Your task to perform on an android device: Search for the new Apple Watch on Best Buy Image 0: 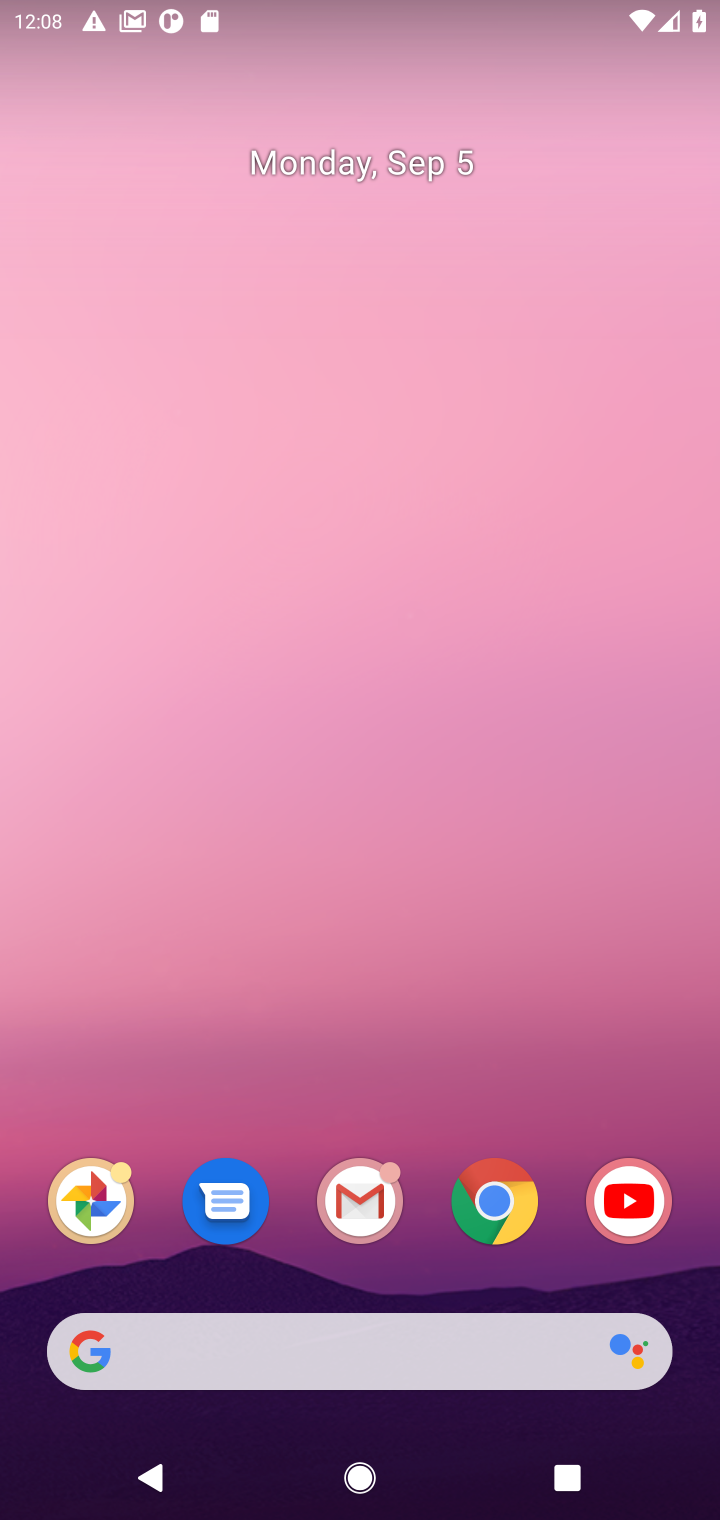
Step 0: click (506, 1210)
Your task to perform on an android device: Search for the new Apple Watch on Best Buy Image 1: 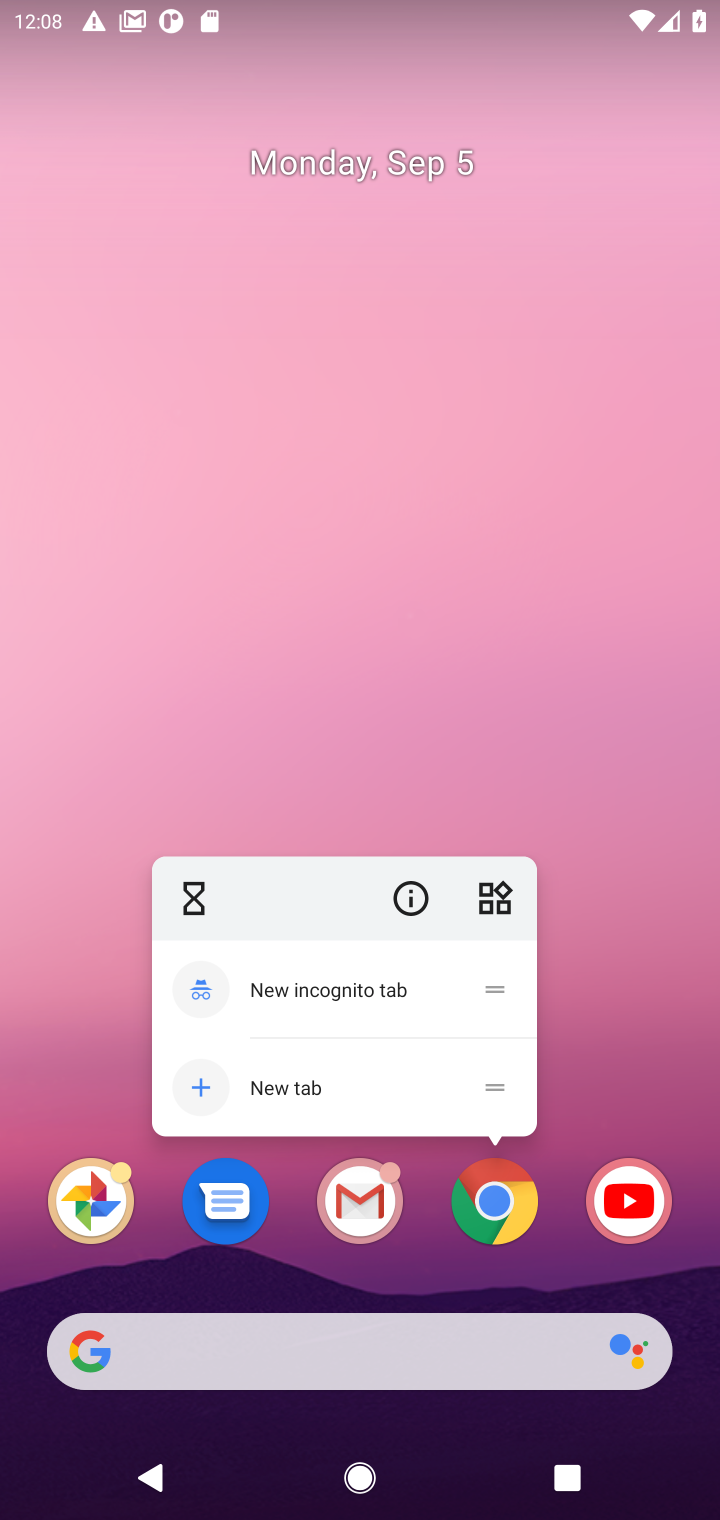
Step 1: click (496, 1200)
Your task to perform on an android device: Search for the new Apple Watch on Best Buy Image 2: 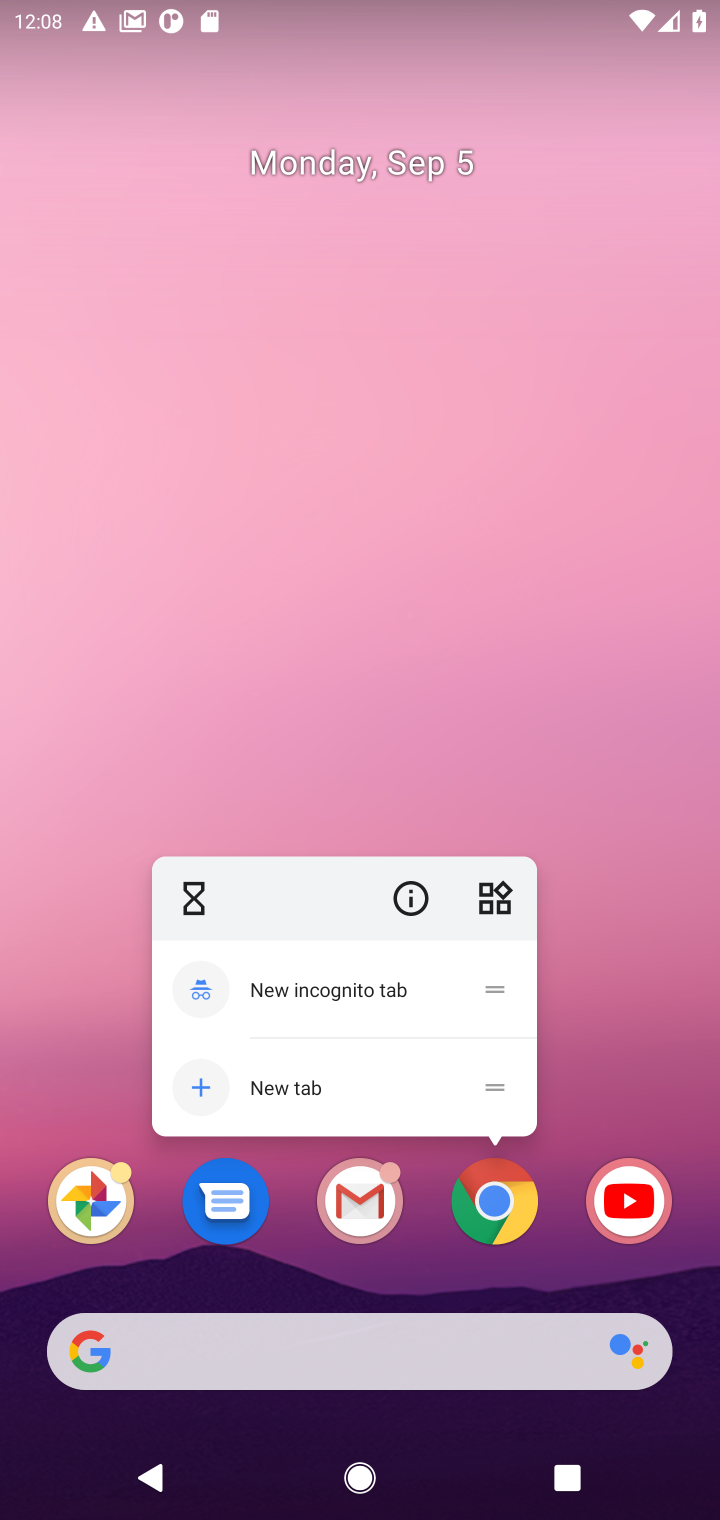
Step 2: click (501, 1214)
Your task to perform on an android device: Search for the new Apple Watch on Best Buy Image 3: 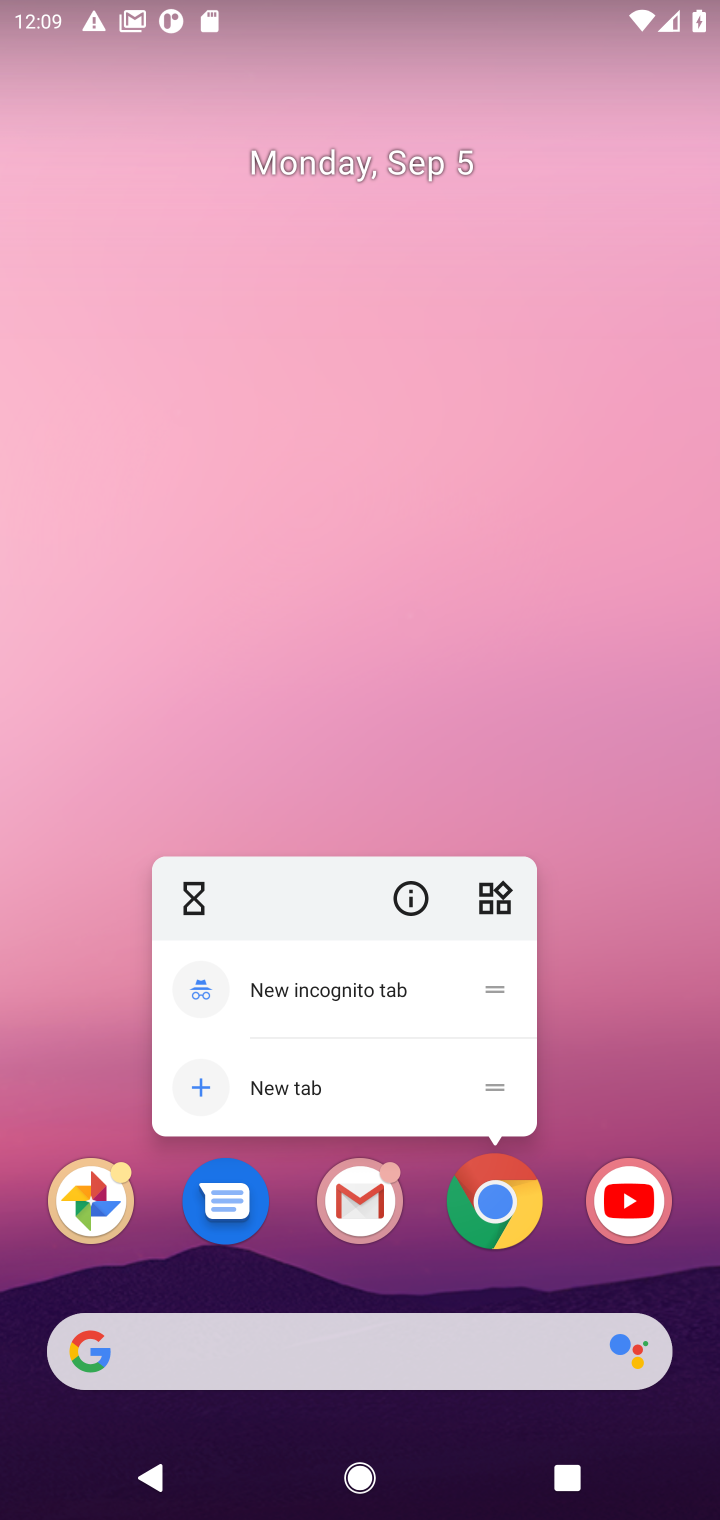
Step 3: click (482, 1197)
Your task to perform on an android device: Search for the new Apple Watch on Best Buy Image 4: 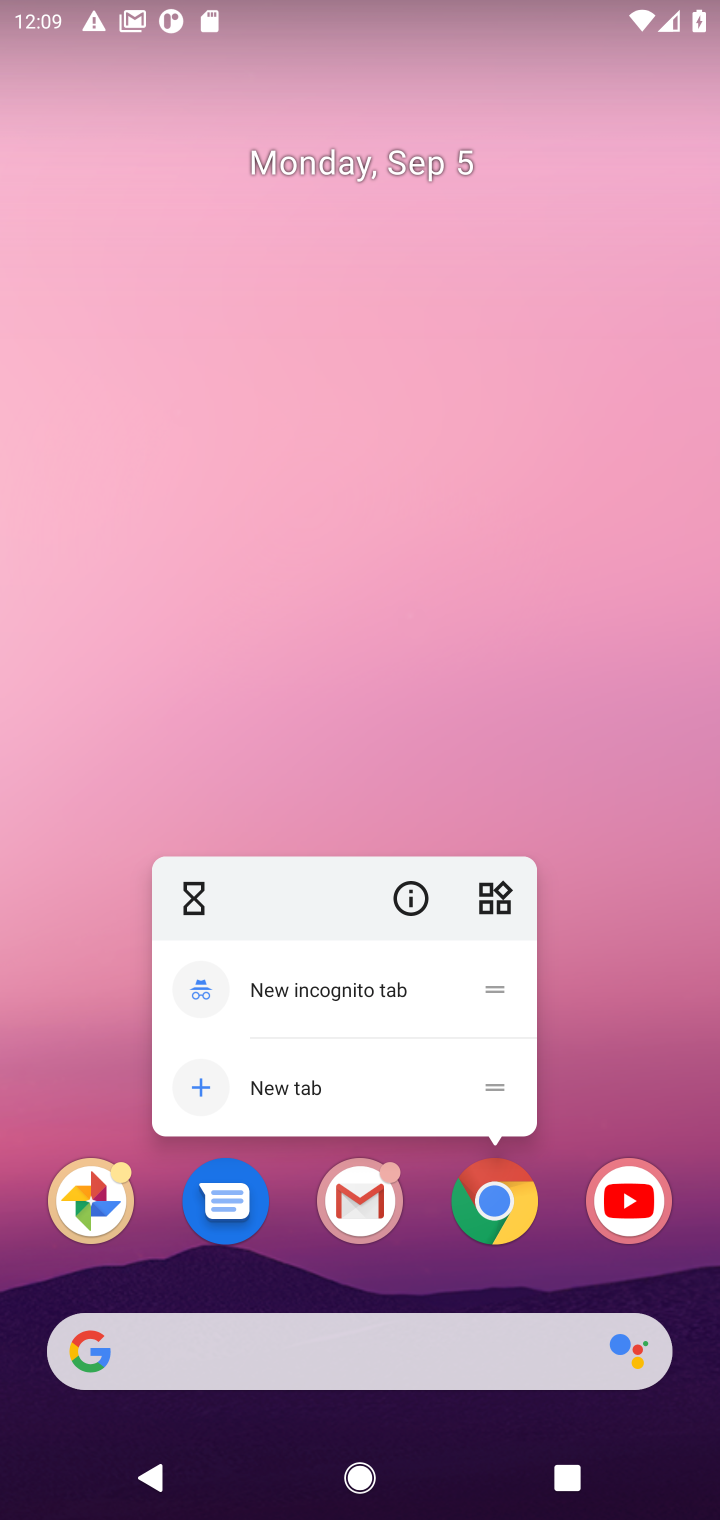
Step 4: click (487, 1205)
Your task to perform on an android device: Search for the new Apple Watch on Best Buy Image 5: 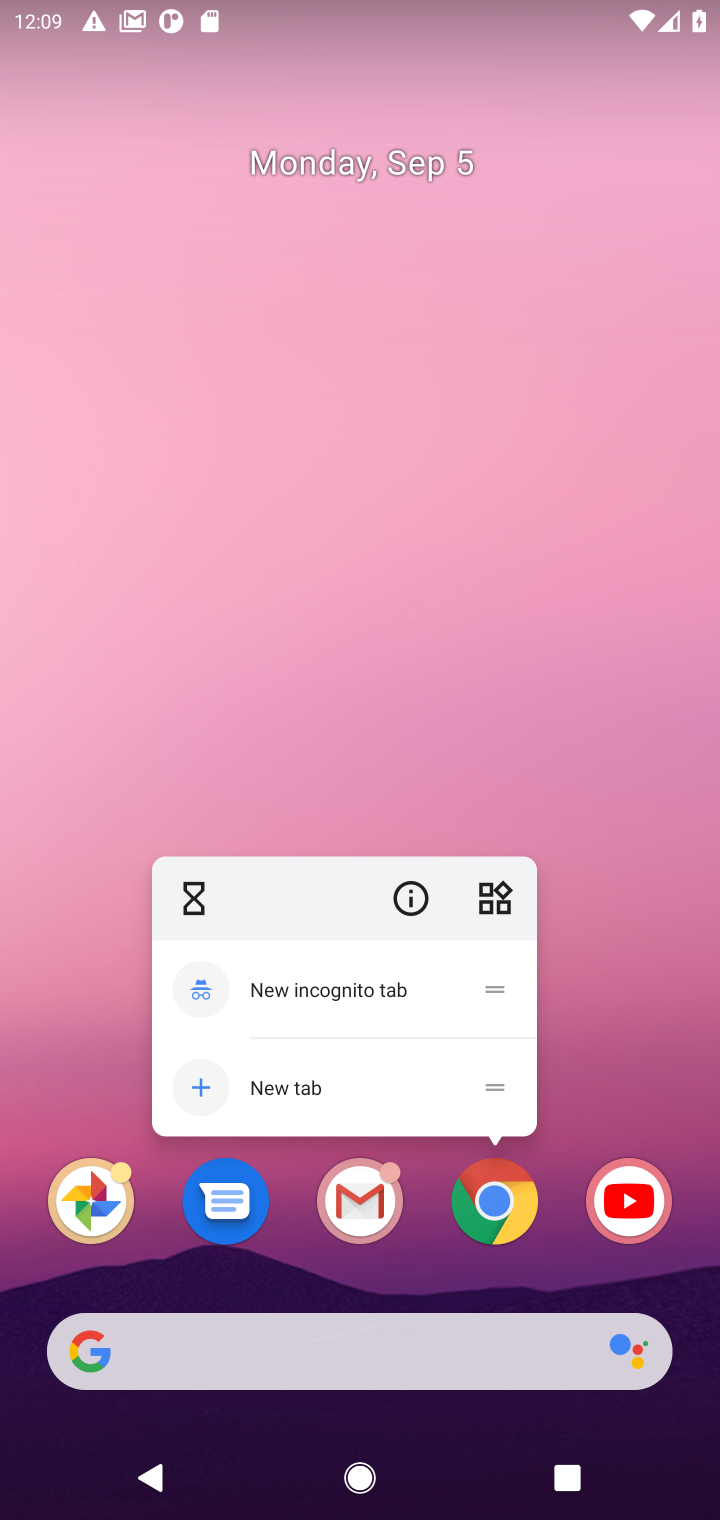
Step 5: click (500, 1216)
Your task to perform on an android device: Search for the new Apple Watch on Best Buy Image 6: 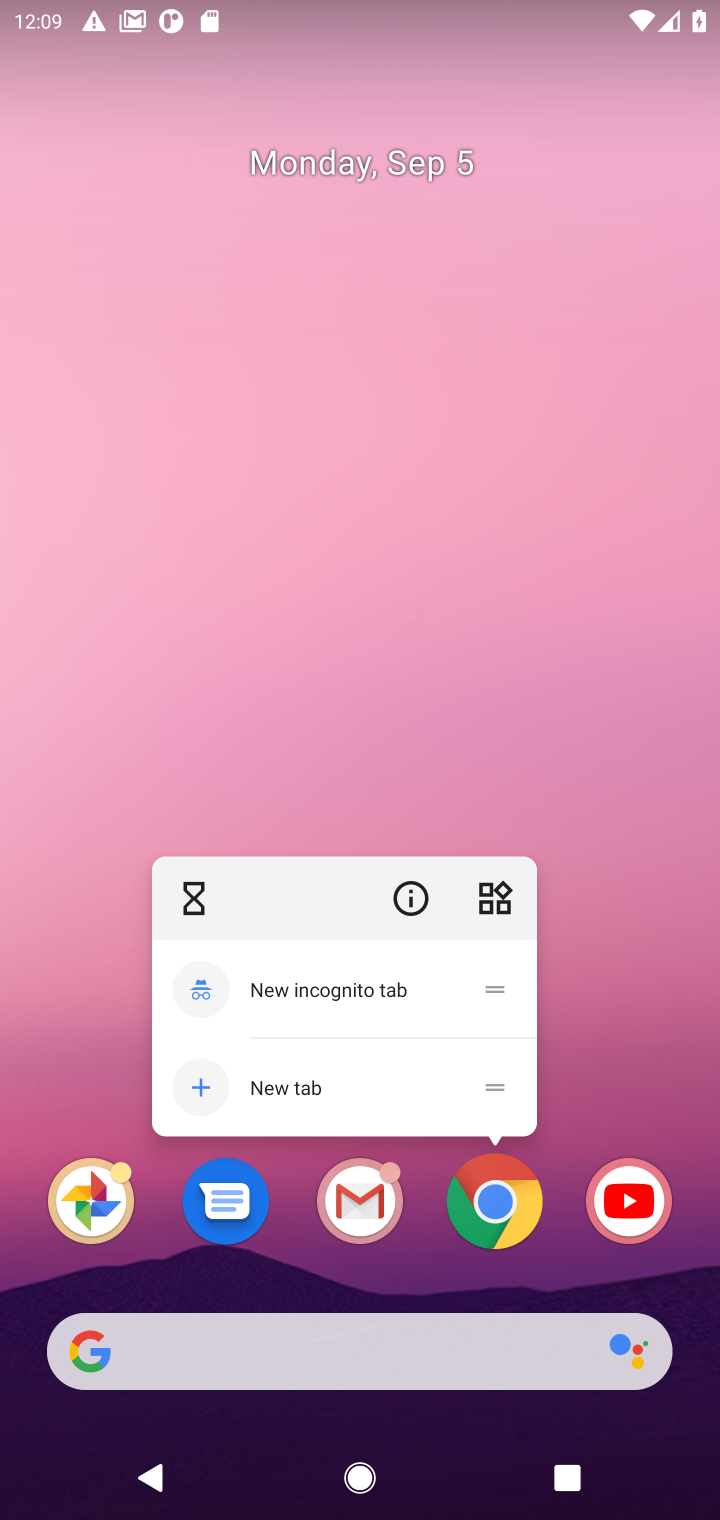
Step 6: click (504, 1208)
Your task to perform on an android device: Search for the new Apple Watch on Best Buy Image 7: 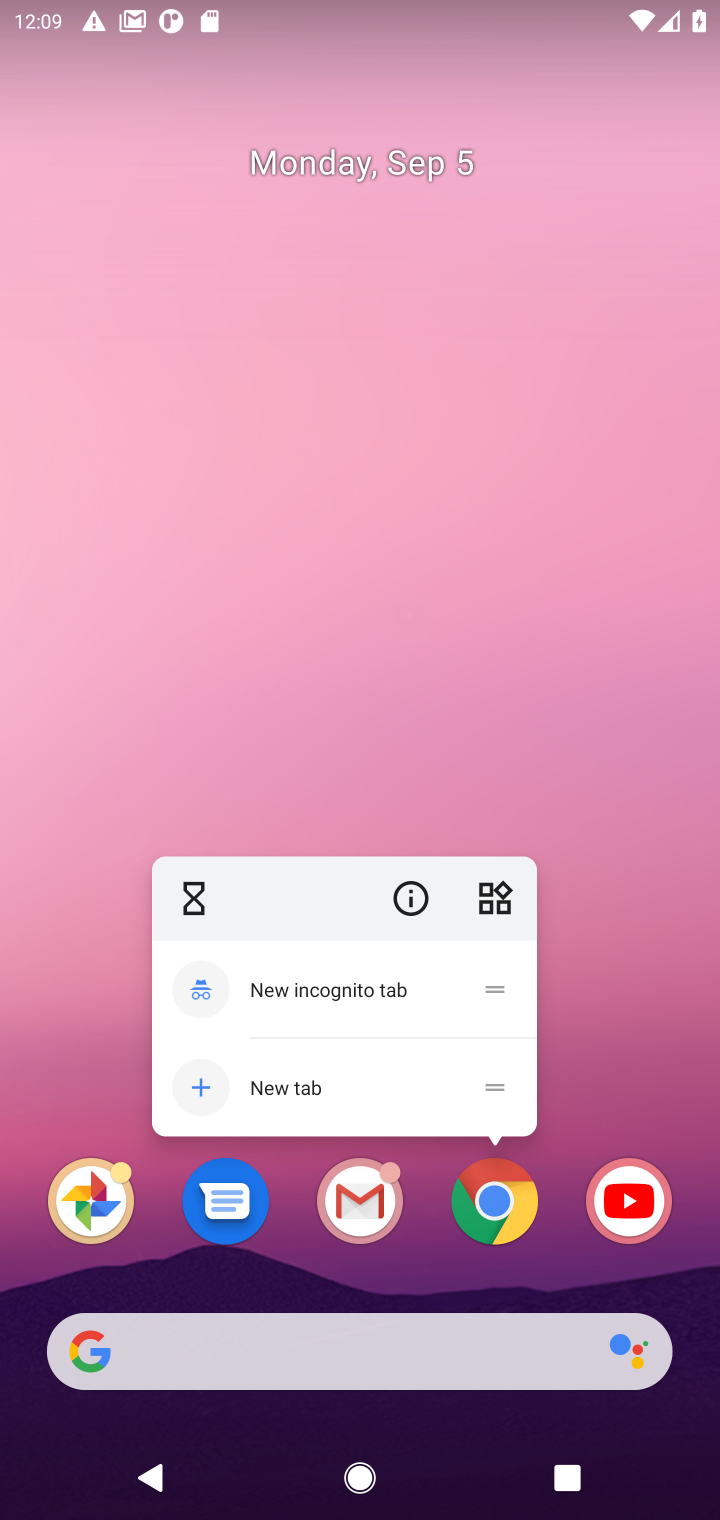
Step 7: click (508, 1210)
Your task to perform on an android device: Search for the new Apple Watch on Best Buy Image 8: 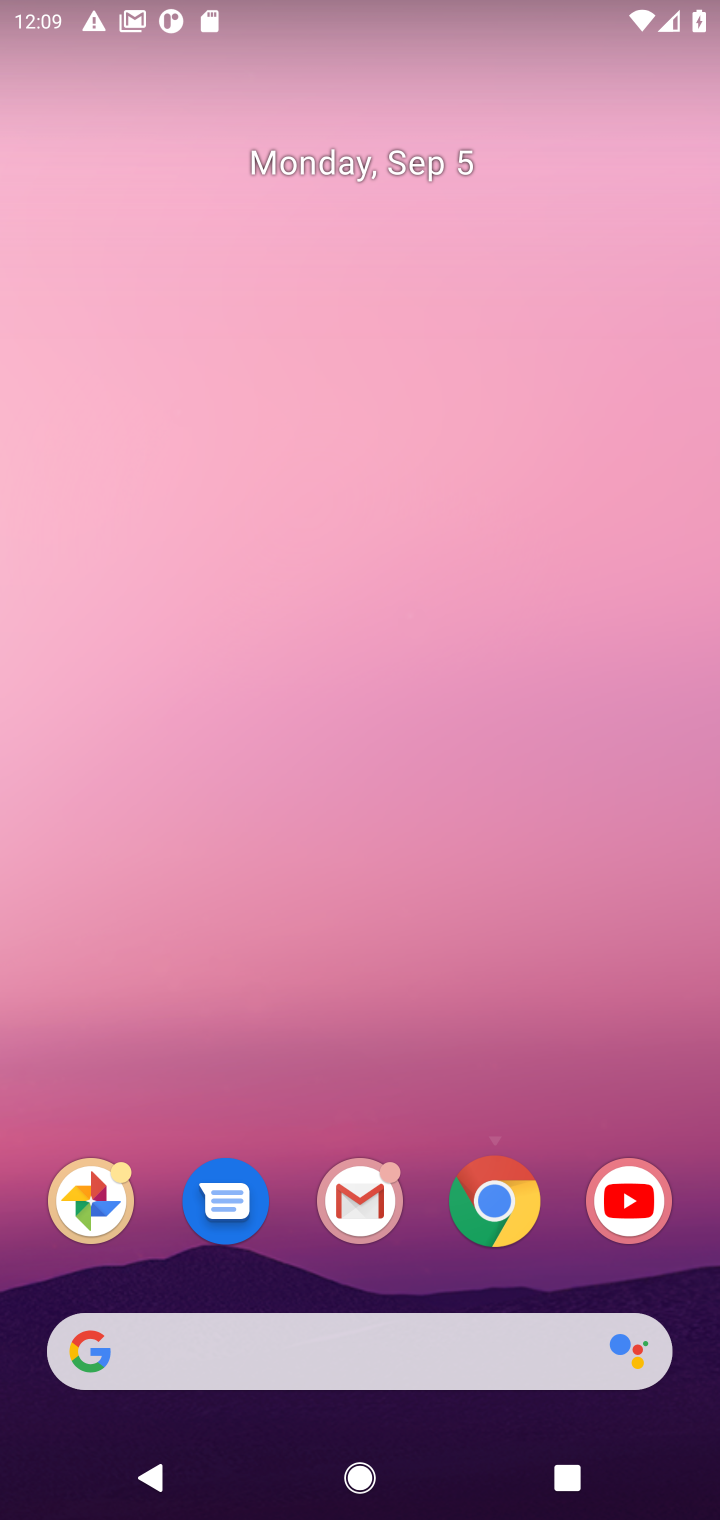
Step 8: click (508, 1212)
Your task to perform on an android device: Search for the new Apple Watch on Best Buy Image 9: 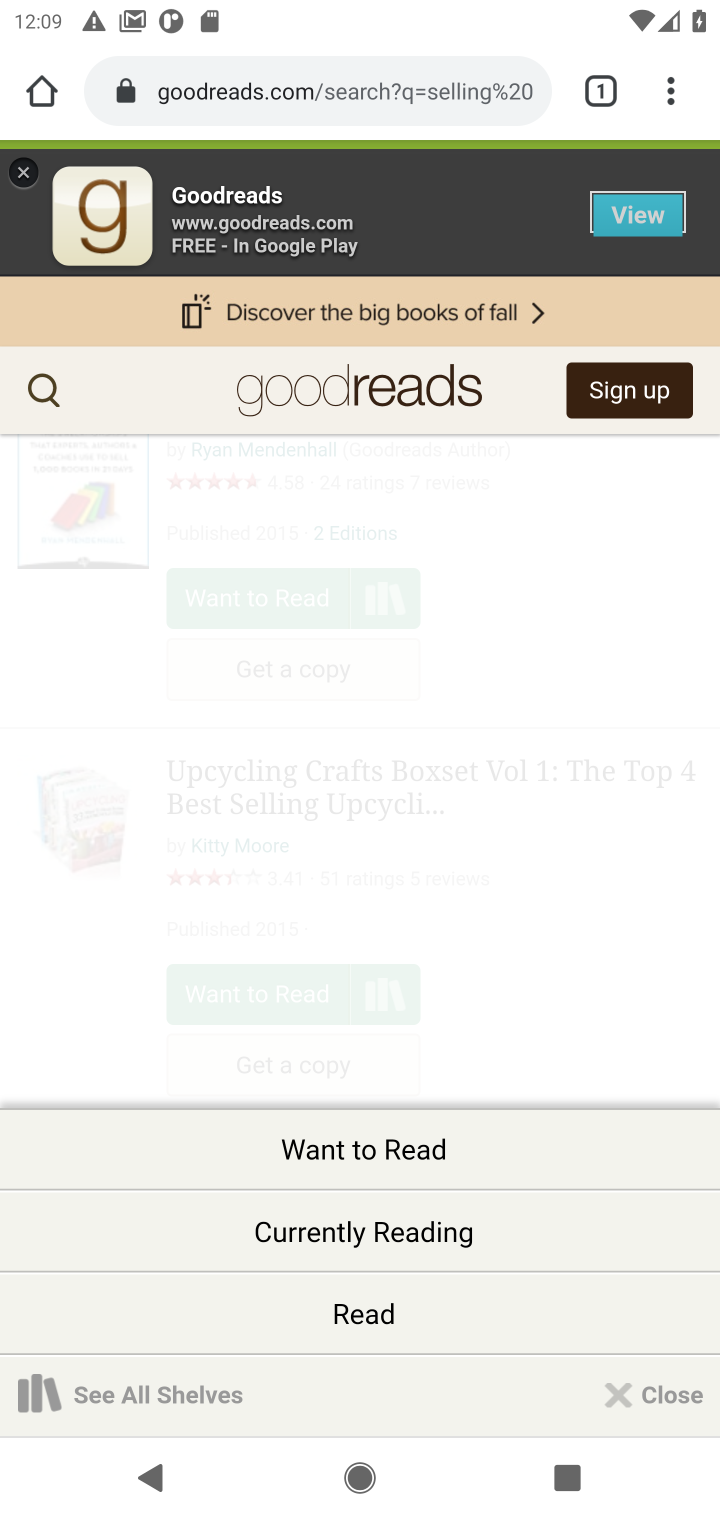
Step 9: click (335, 87)
Your task to perform on an android device: Search for the new Apple Watch on Best Buy Image 10: 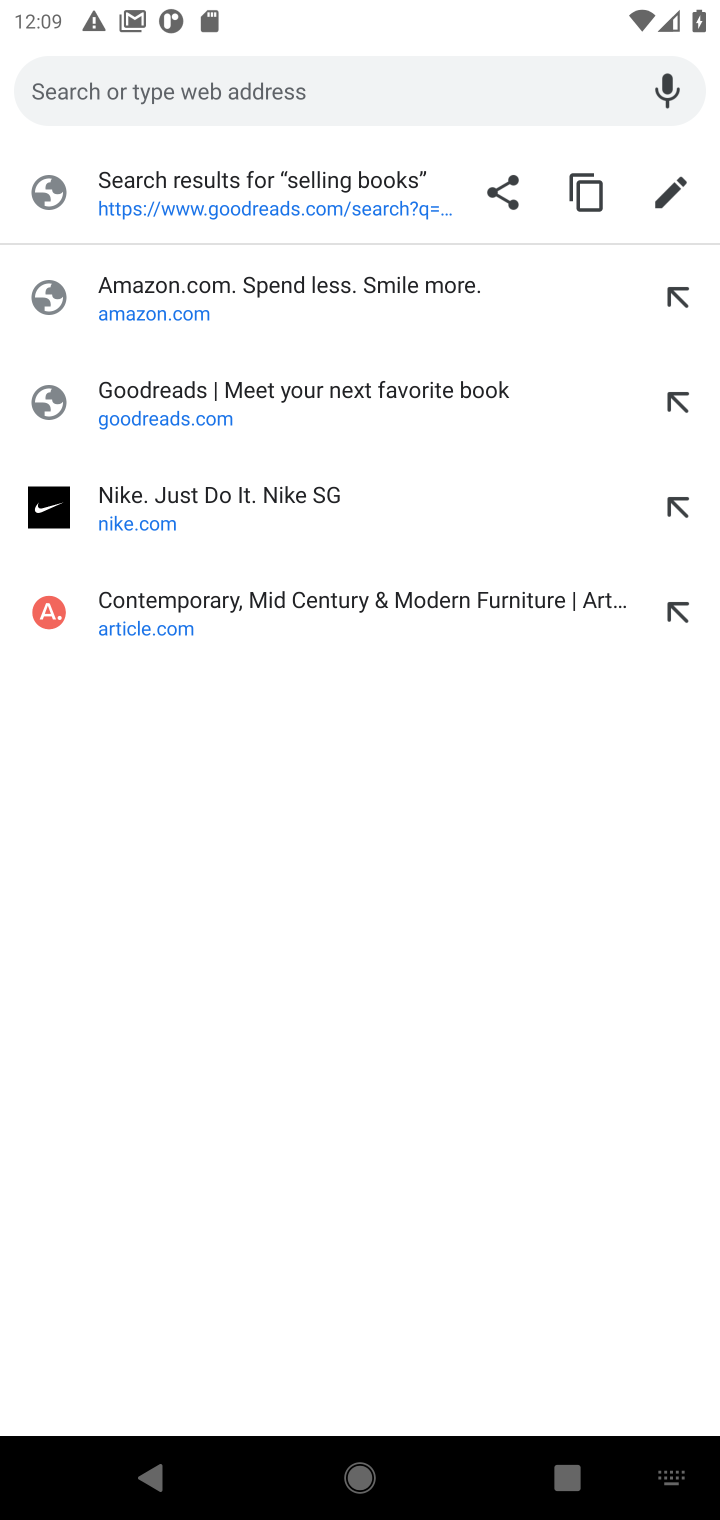
Step 10: type "best buy"
Your task to perform on an android device: Search for the new Apple Watch on Best Buy Image 11: 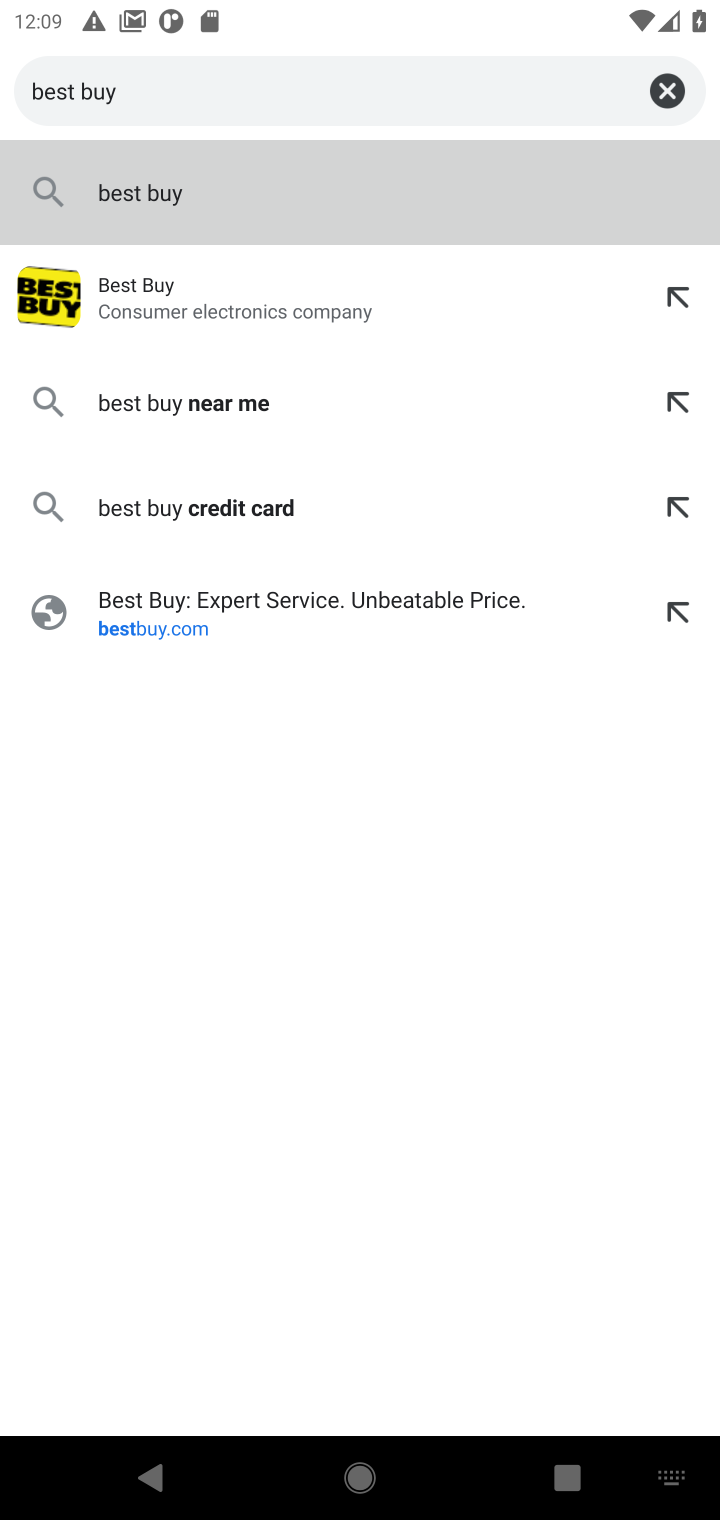
Step 11: click (225, 310)
Your task to perform on an android device: Search for the new Apple Watch on Best Buy Image 12: 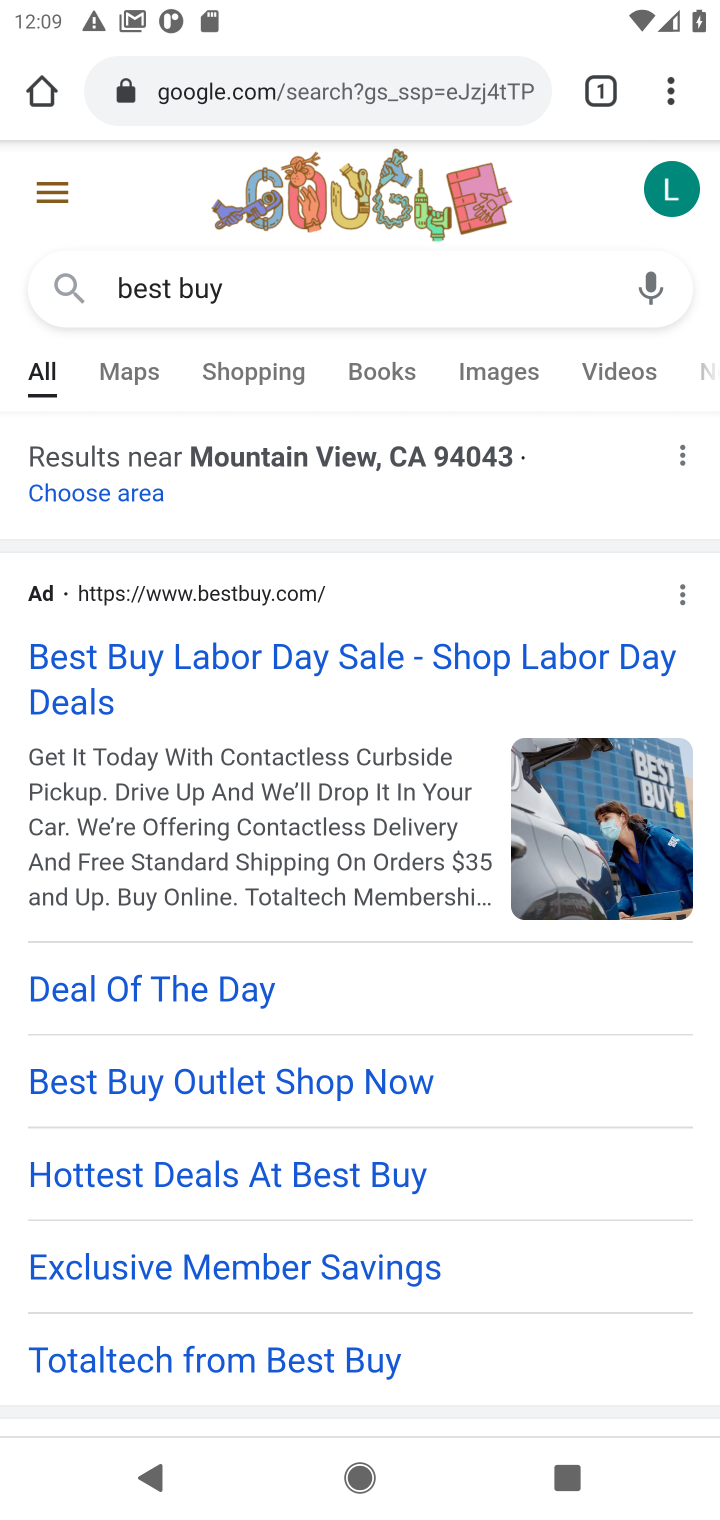
Step 12: drag from (541, 1143) to (547, 326)
Your task to perform on an android device: Search for the new Apple Watch on Best Buy Image 13: 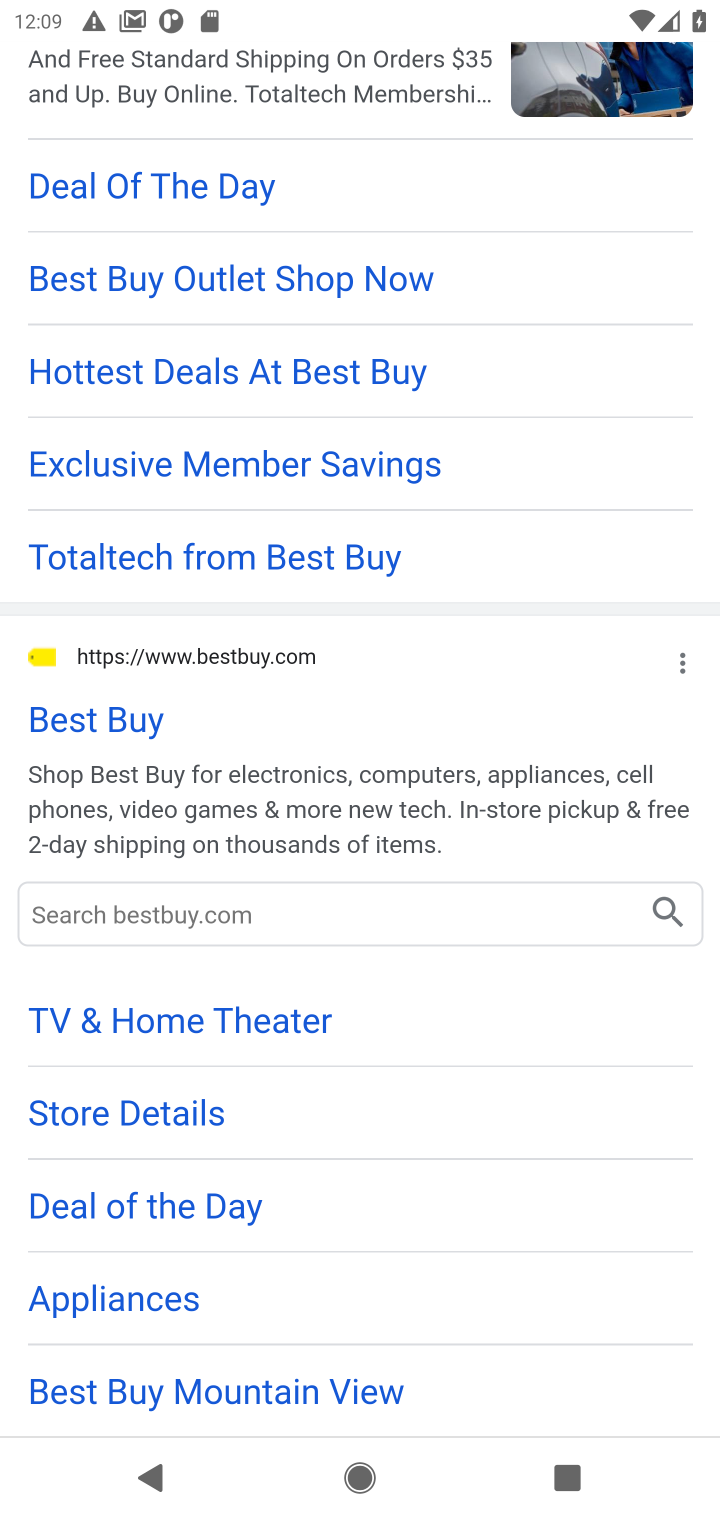
Step 13: click (56, 708)
Your task to perform on an android device: Search for the new Apple Watch on Best Buy Image 14: 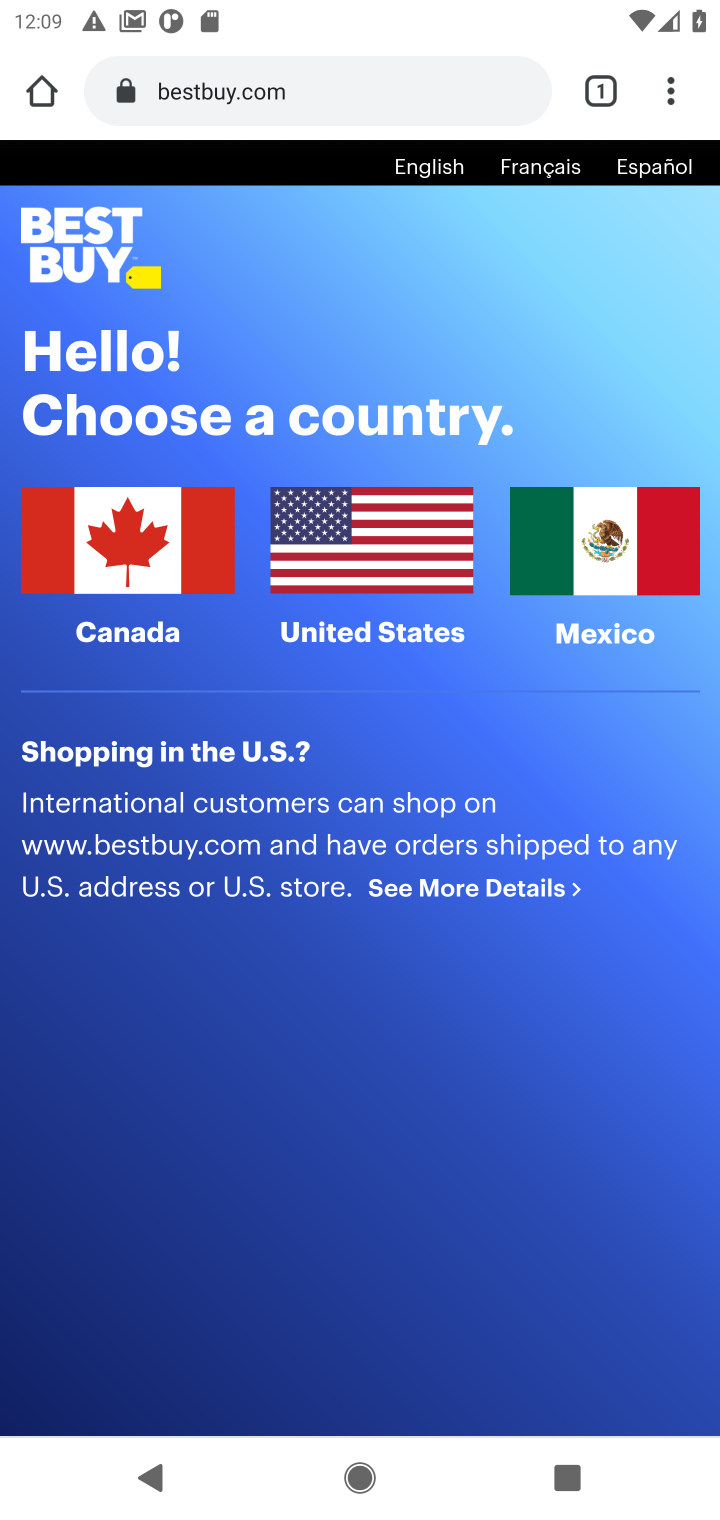
Step 14: click (337, 560)
Your task to perform on an android device: Search for the new Apple Watch on Best Buy Image 15: 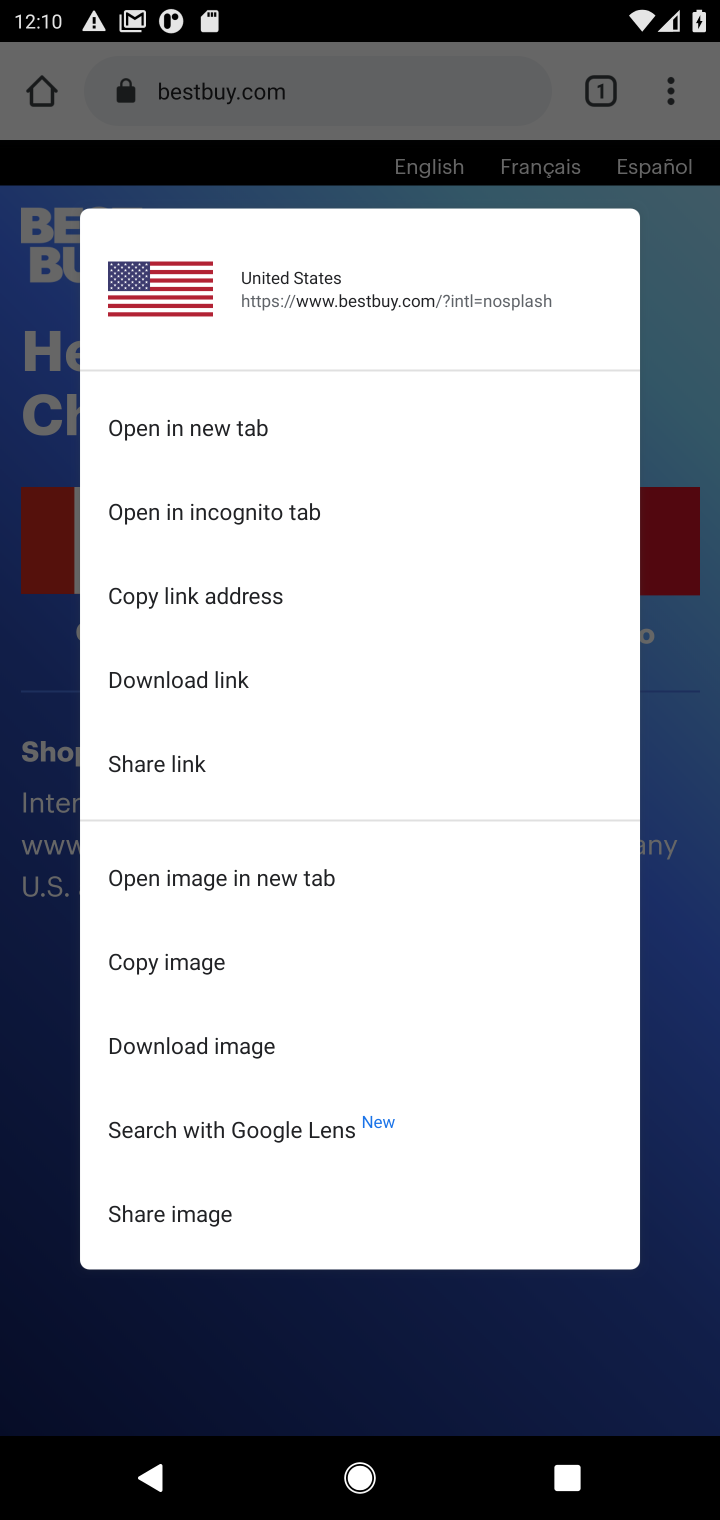
Step 15: click (703, 804)
Your task to perform on an android device: Search for the new Apple Watch on Best Buy Image 16: 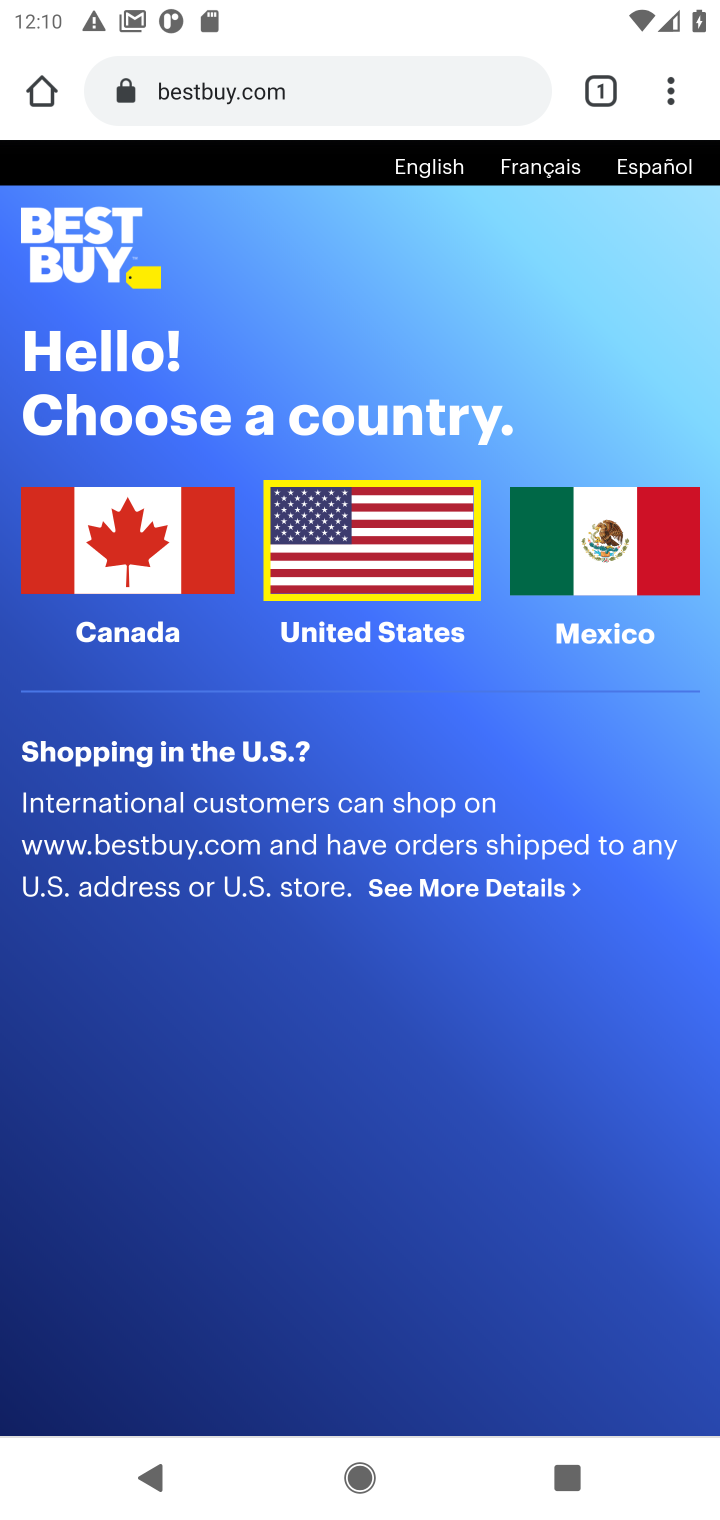
Step 16: click (386, 533)
Your task to perform on an android device: Search for the new Apple Watch on Best Buy Image 17: 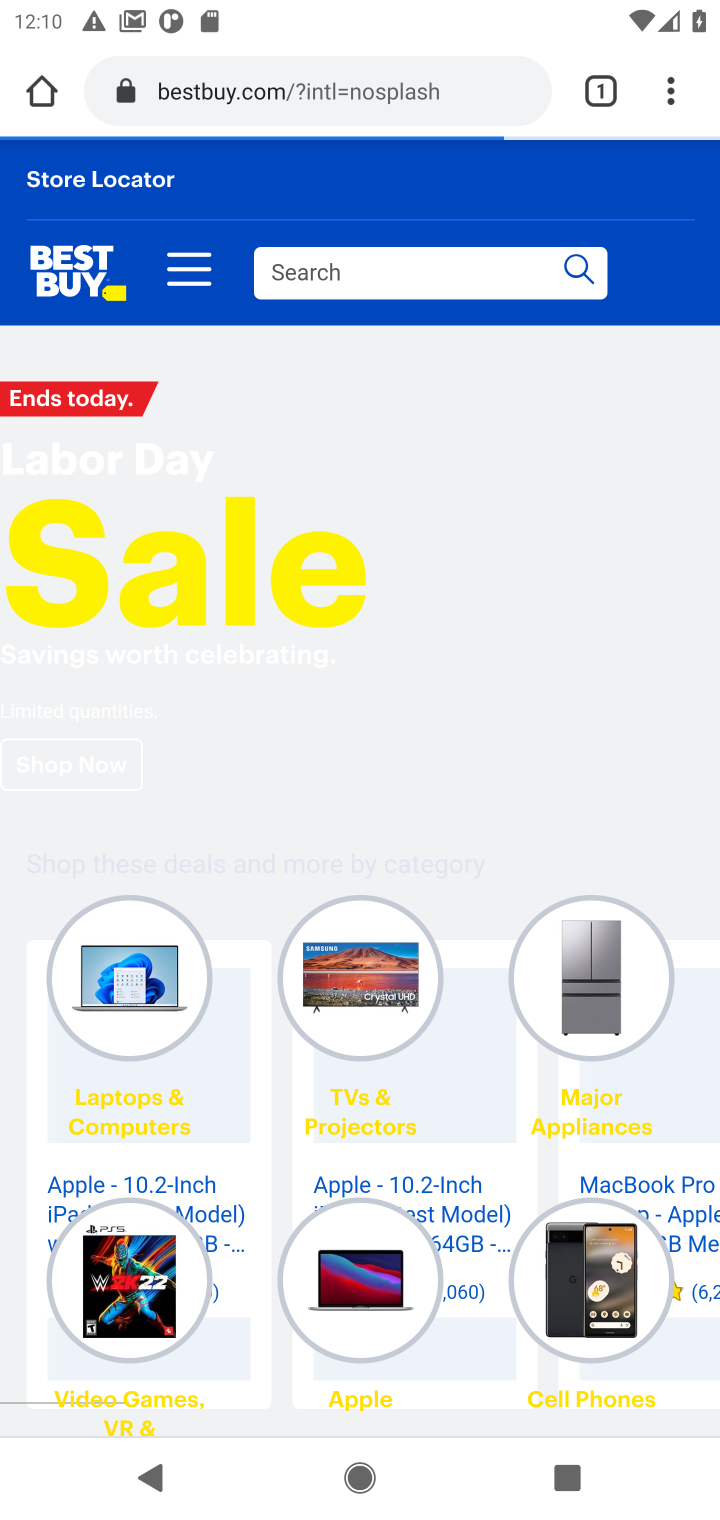
Step 17: click (398, 277)
Your task to perform on an android device: Search for the new Apple Watch on Best Buy Image 18: 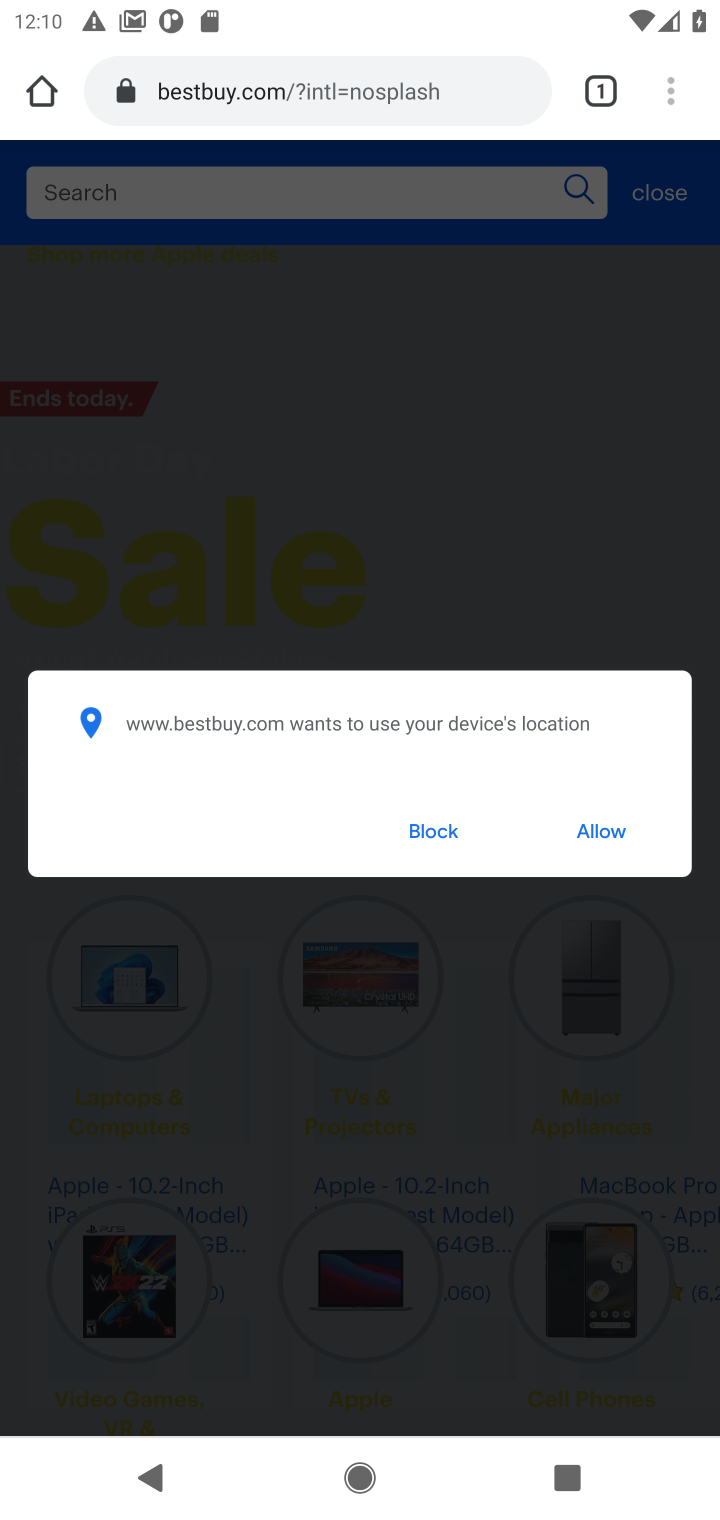
Step 18: type "apple watch"
Your task to perform on an android device: Search for the new Apple Watch on Best Buy Image 19: 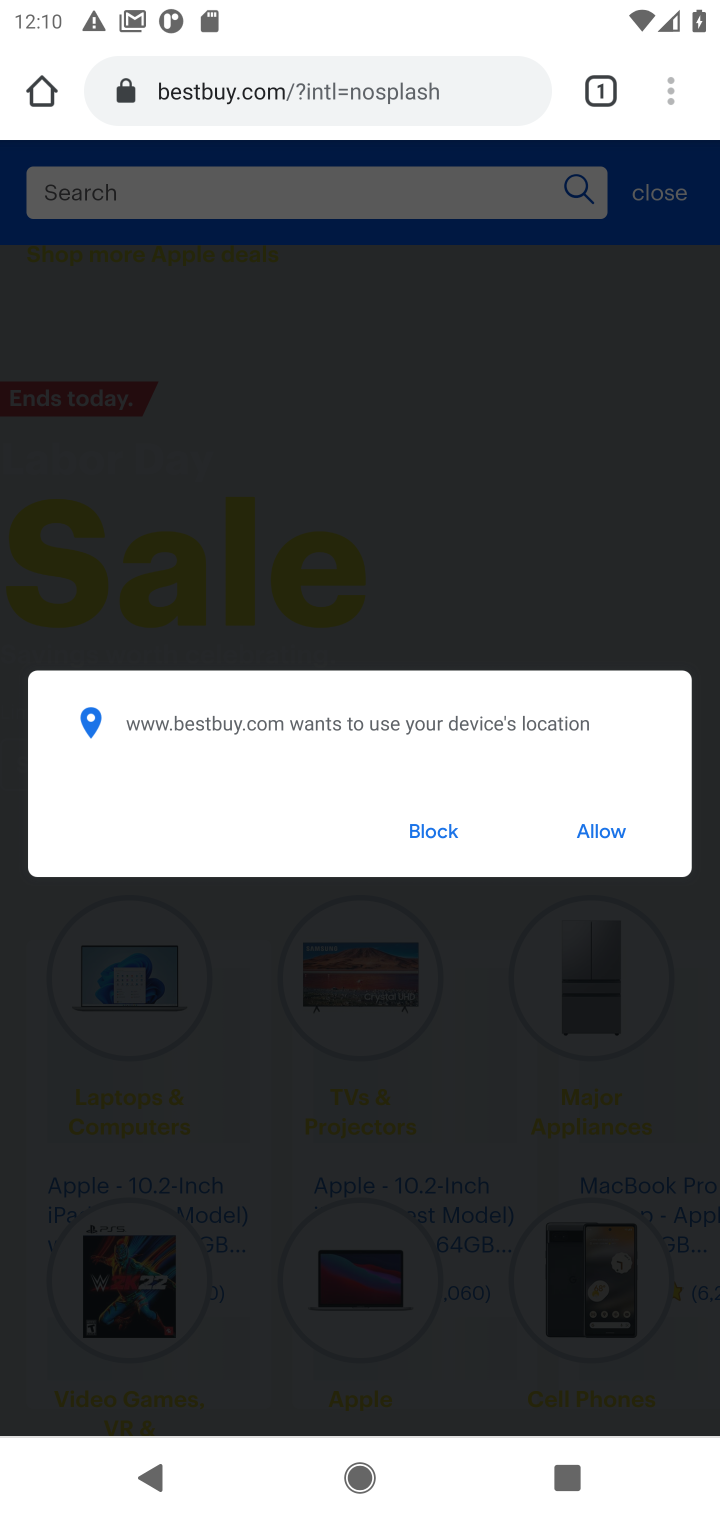
Step 19: click (598, 831)
Your task to perform on an android device: Search for the new Apple Watch on Best Buy Image 20: 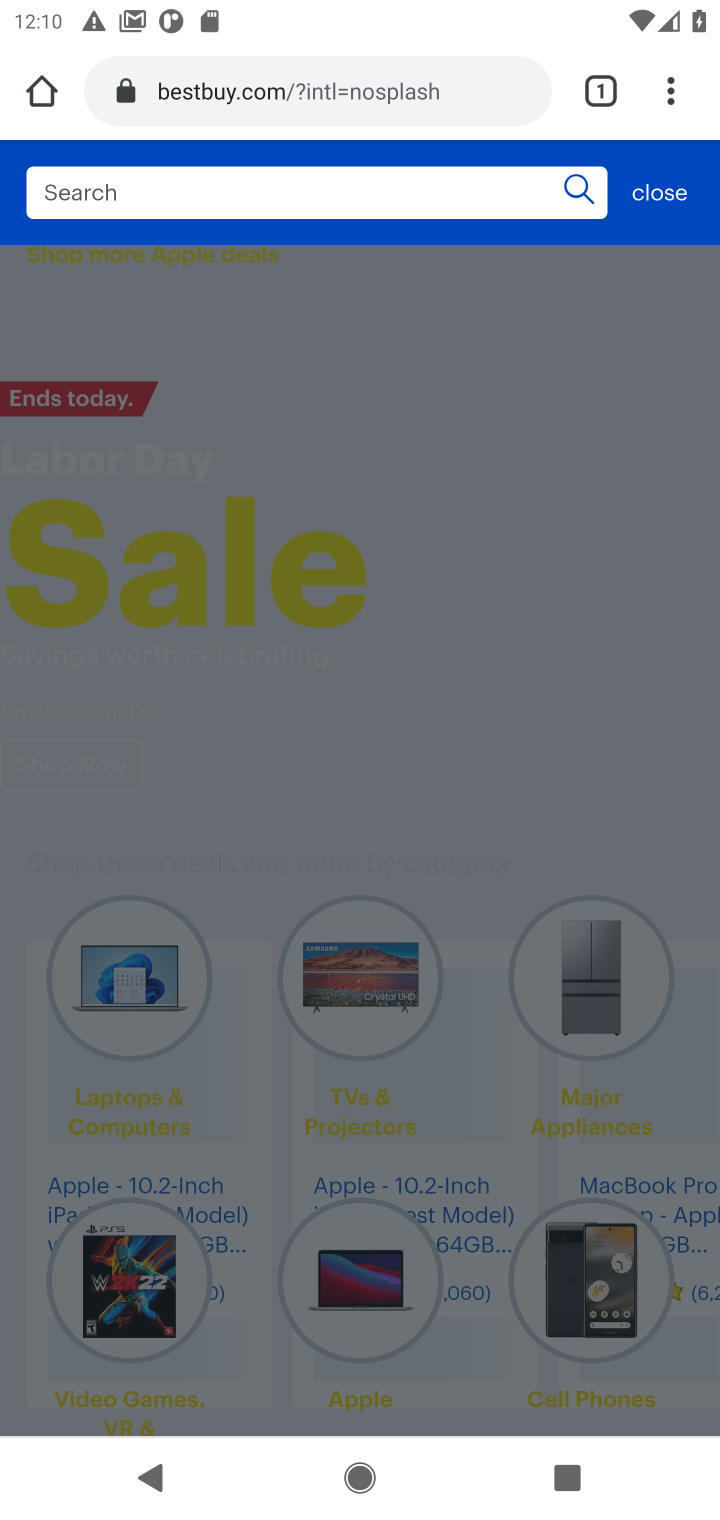
Step 20: click (374, 193)
Your task to perform on an android device: Search for the new Apple Watch on Best Buy Image 21: 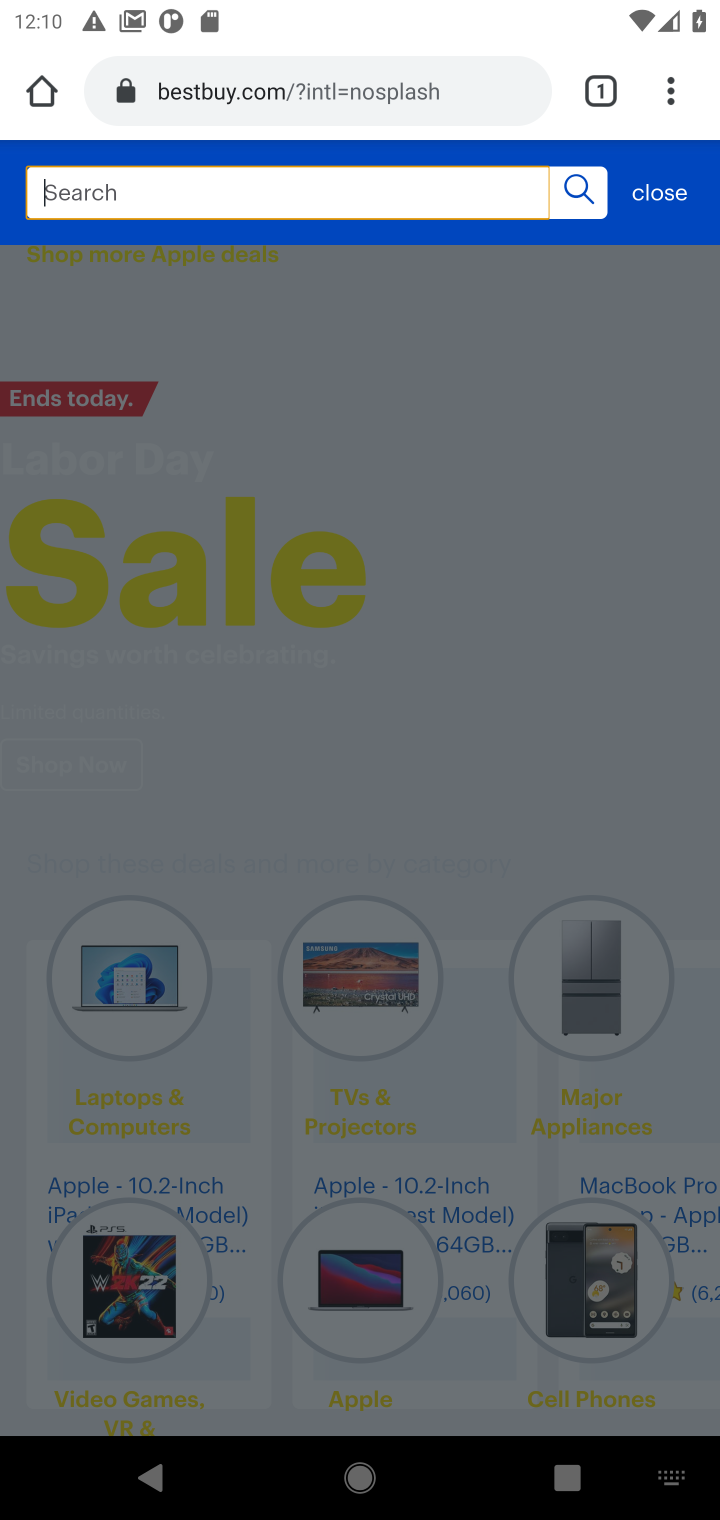
Step 21: type "apple watch"
Your task to perform on an android device: Search for the new Apple Watch on Best Buy Image 22: 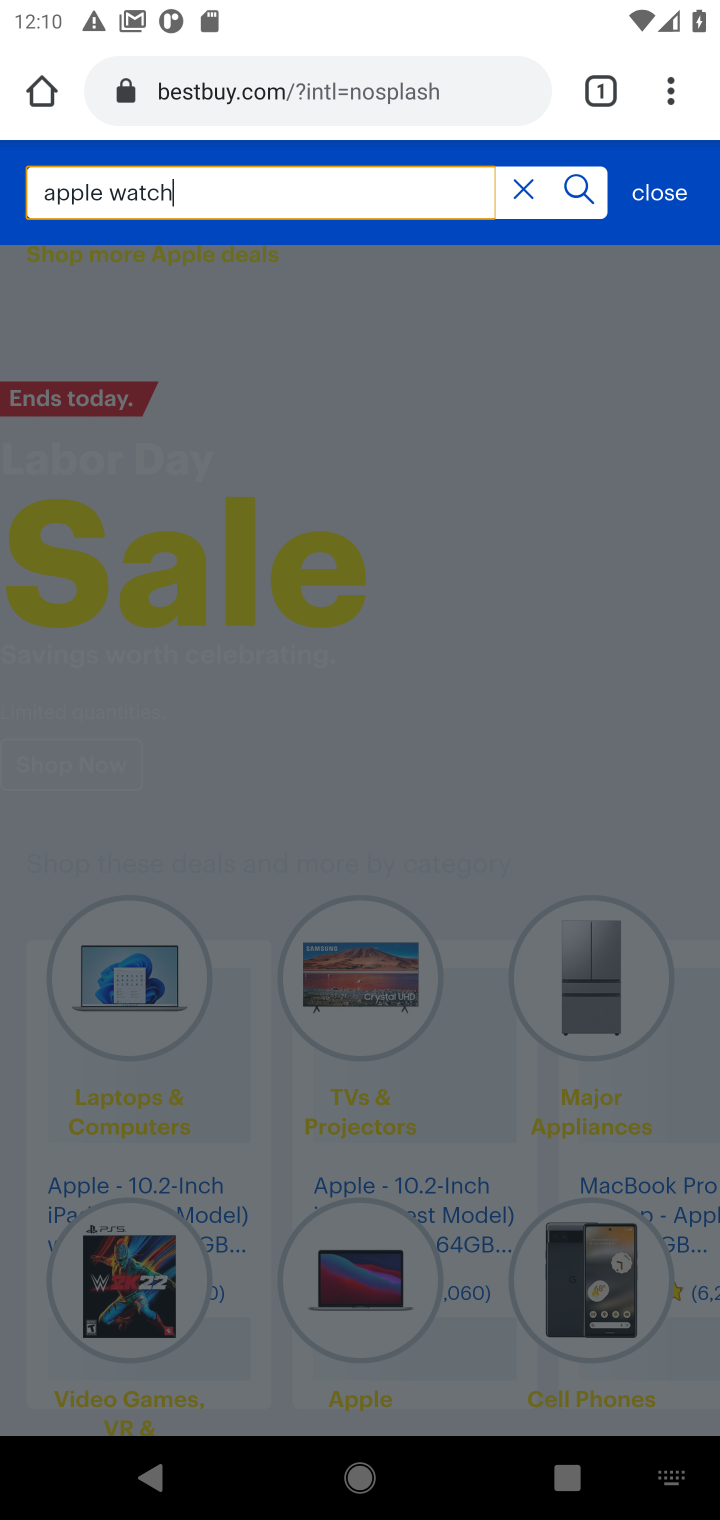
Step 22: type ""
Your task to perform on an android device: Search for the new Apple Watch on Best Buy Image 23: 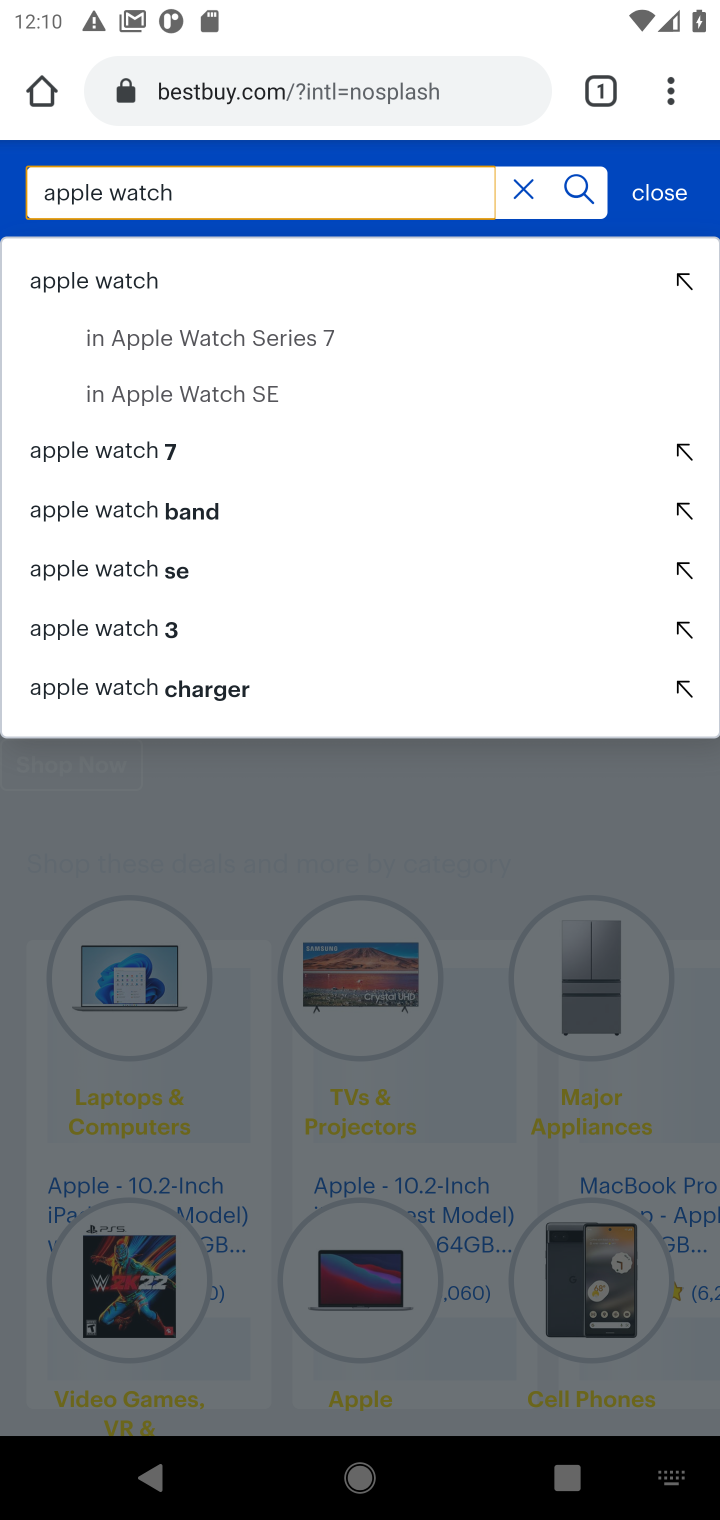
Step 23: click (123, 440)
Your task to perform on an android device: Search for the new Apple Watch on Best Buy Image 24: 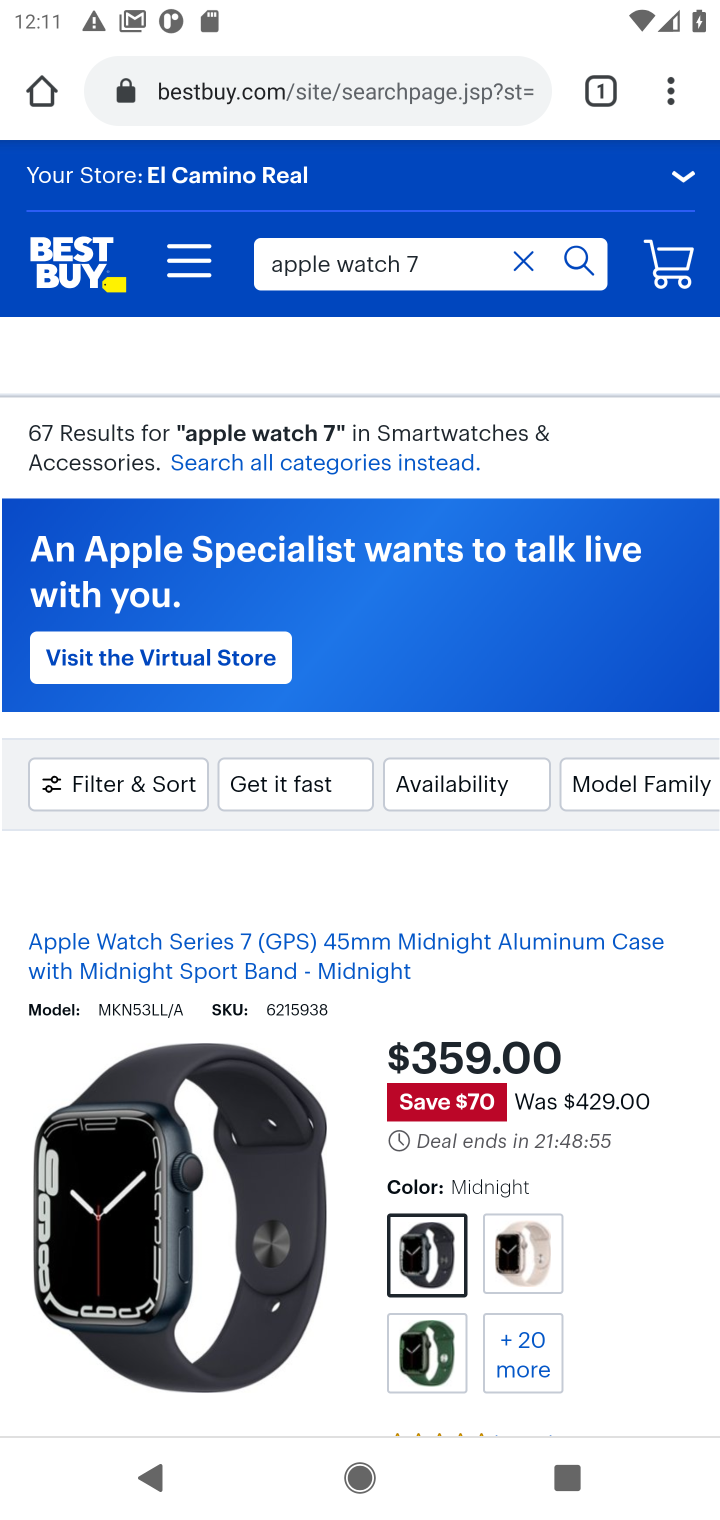
Step 24: drag from (653, 1141) to (617, 779)
Your task to perform on an android device: Search for the new Apple Watch on Best Buy Image 25: 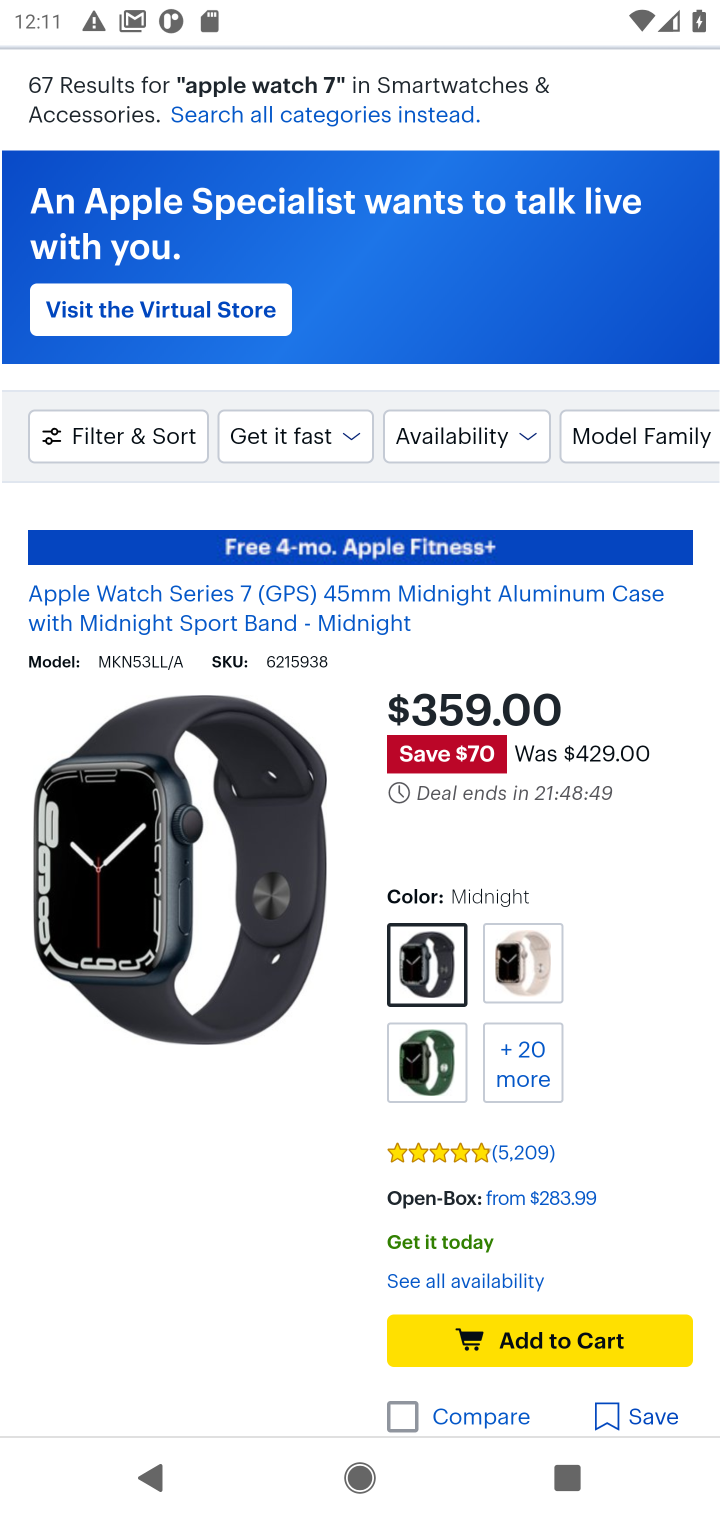
Step 25: drag from (624, 727) to (625, 483)
Your task to perform on an android device: Search for the new Apple Watch on Best Buy Image 26: 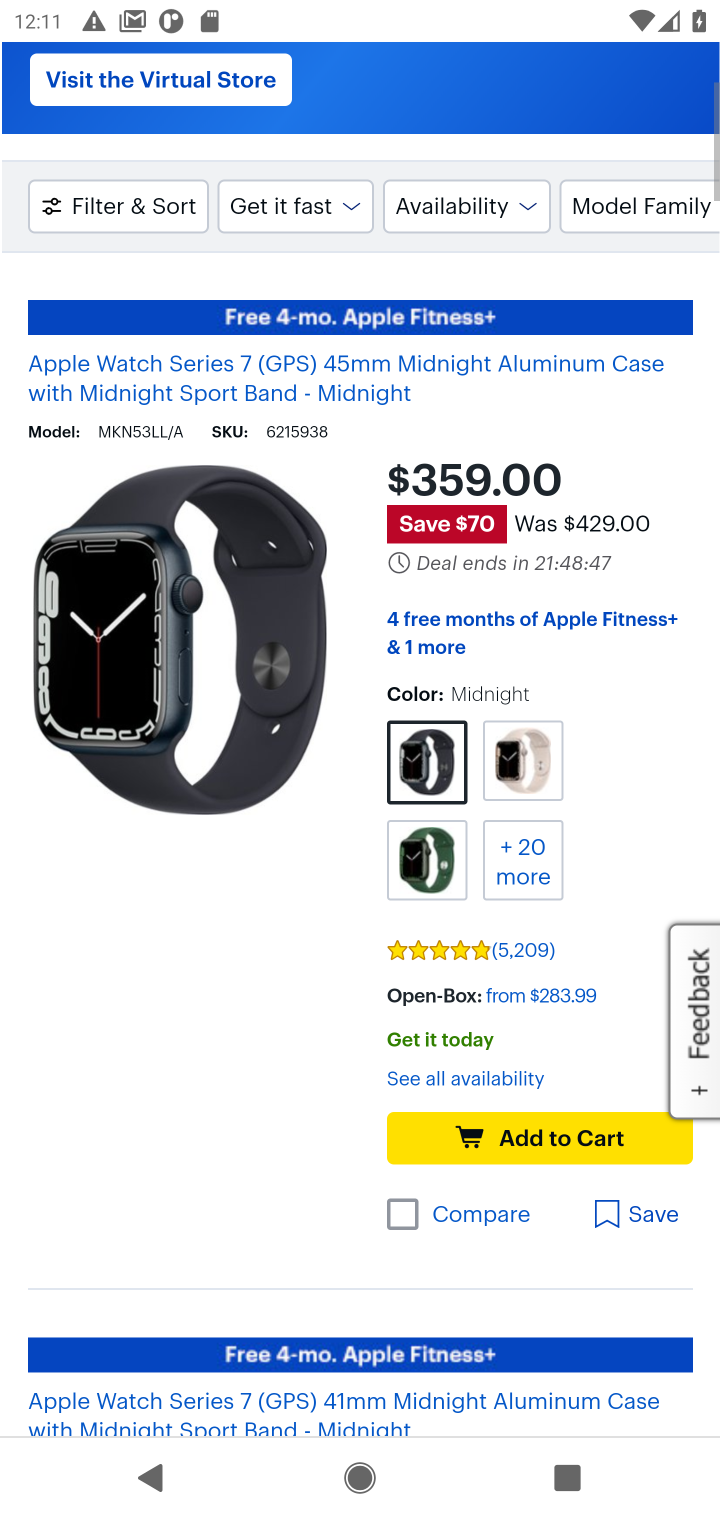
Step 26: click (152, 584)
Your task to perform on an android device: Search for the new Apple Watch on Best Buy Image 27: 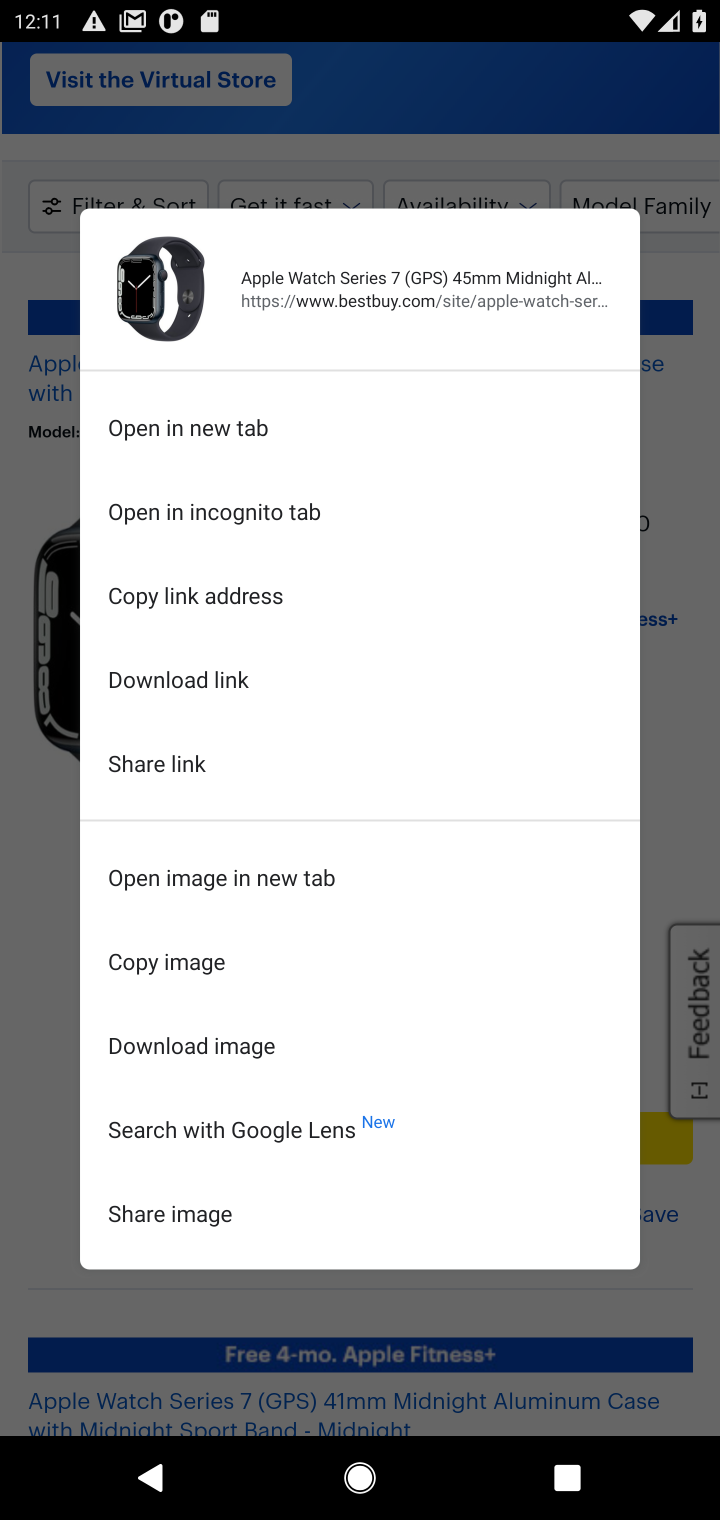
Step 27: click (678, 1261)
Your task to perform on an android device: Search for the new Apple Watch on Best Buy Image 28: 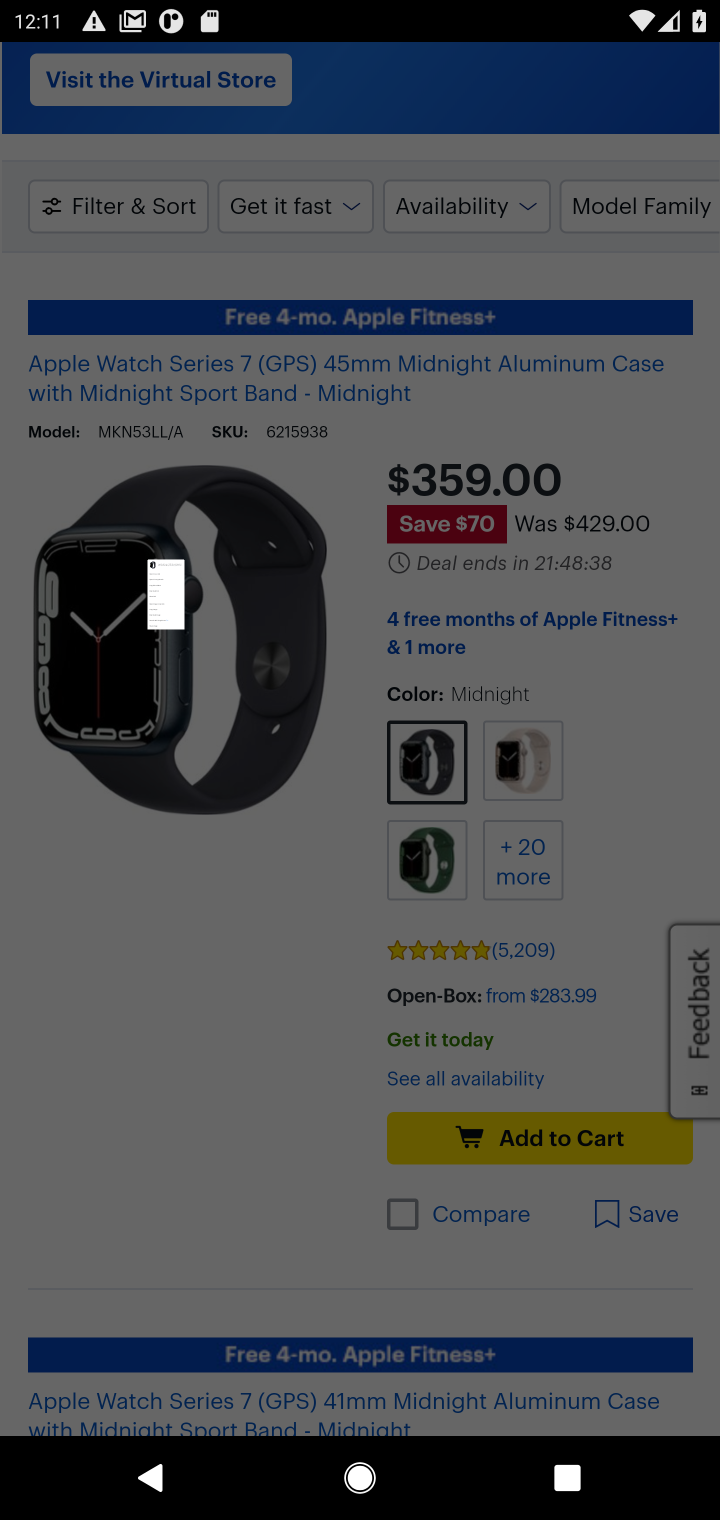
Step 28: drag from (178, 1002) to (297, 528)
Your task to perform on an android device: Search for the new Apple Watch on Best Buy Image 29: 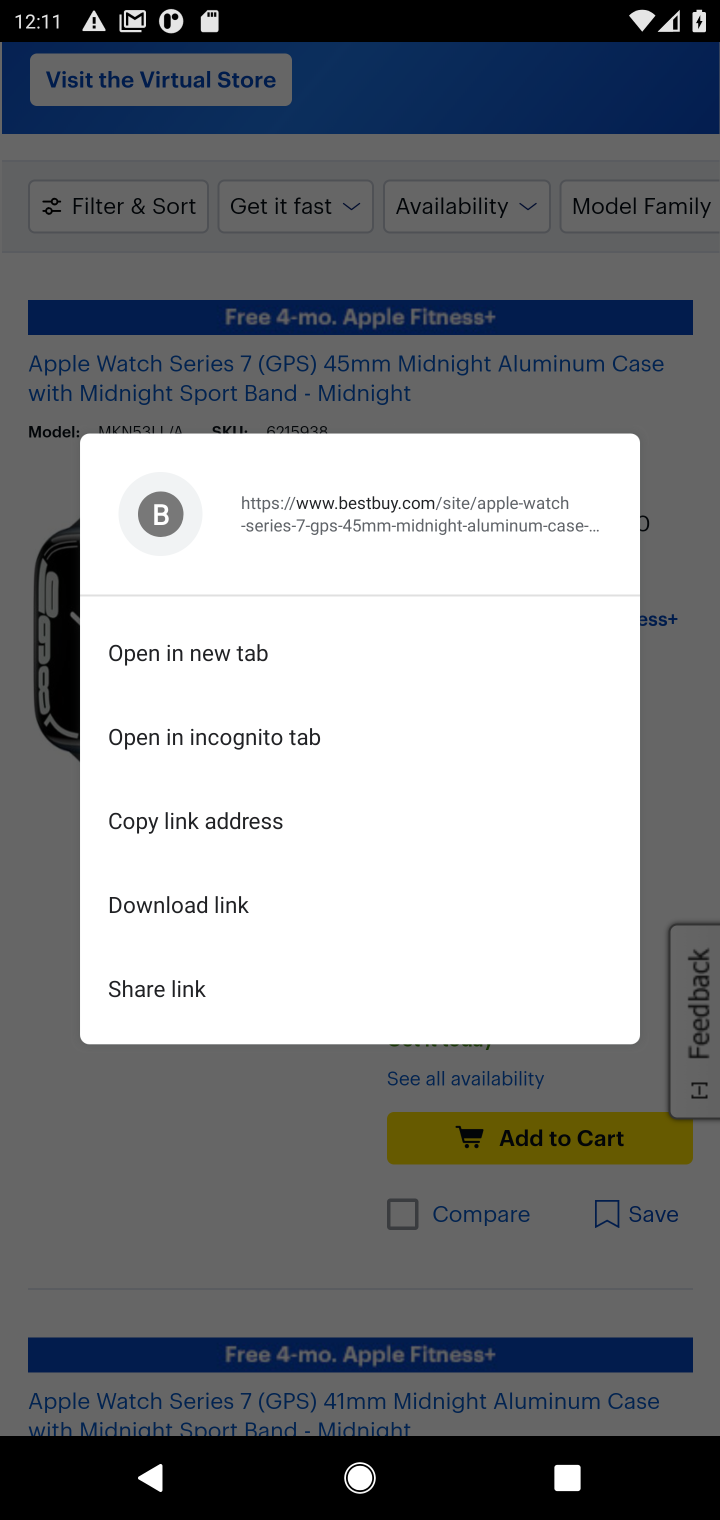
Step 29: click (700, 724)
Your task to perform on an android device: Search for the new Apple Watch on Best Buy Image 30: 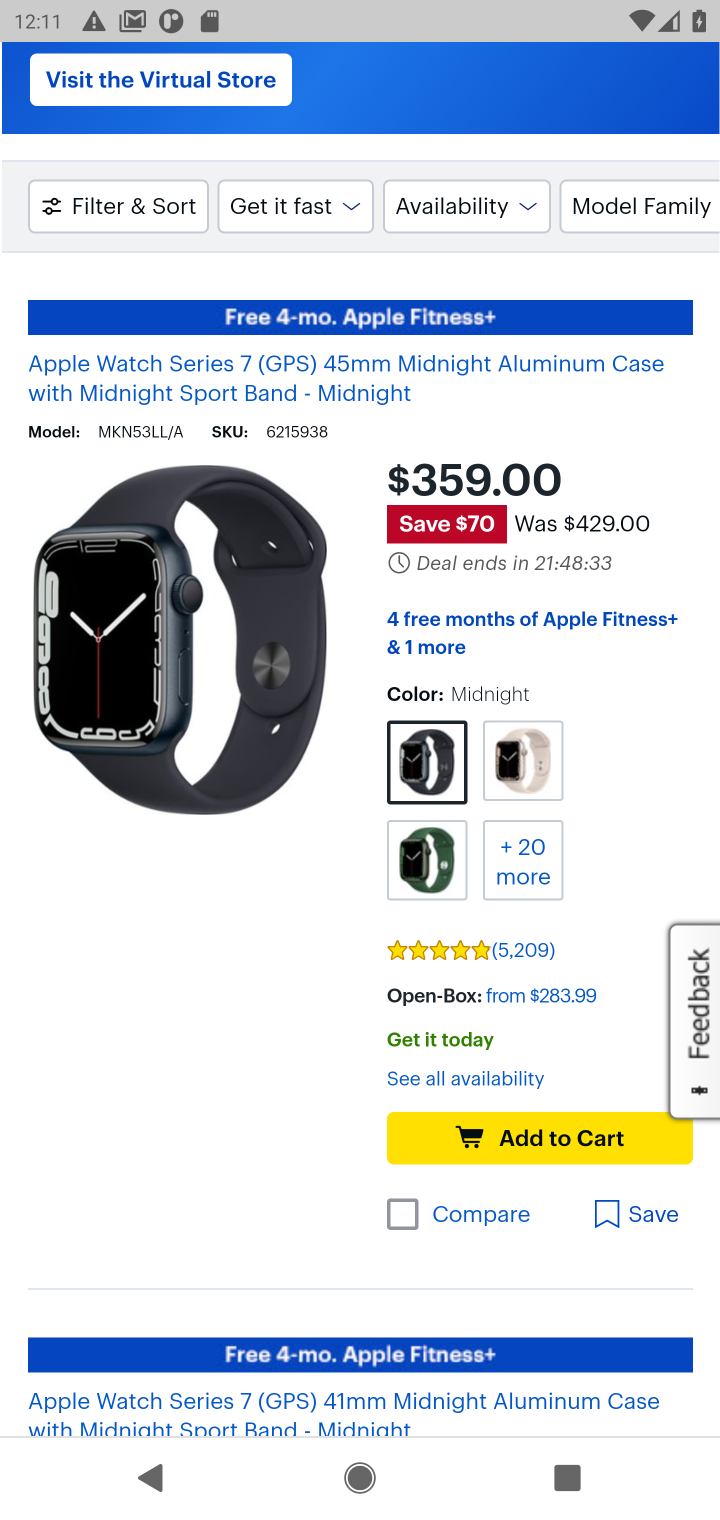
Step 30: drag from (664, 1252) to (581, 6)
Your task to perform on an android device: Search for the new Apple Watch on Best Buy Image 31: 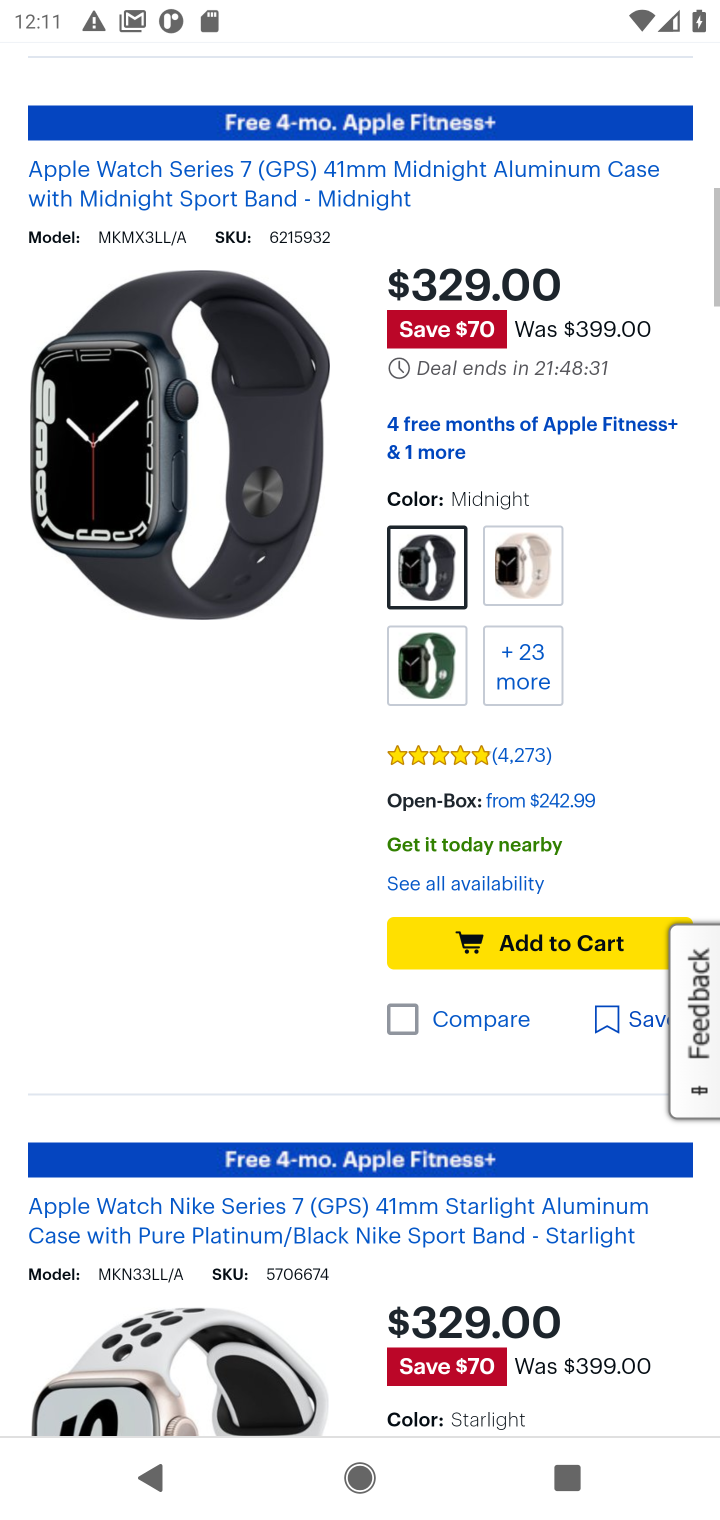
Step 31: drag from (574, 829) to (587, 402)
Your task to perform on an android device: Search for the new Apple Watch on Best Buy Image 32: 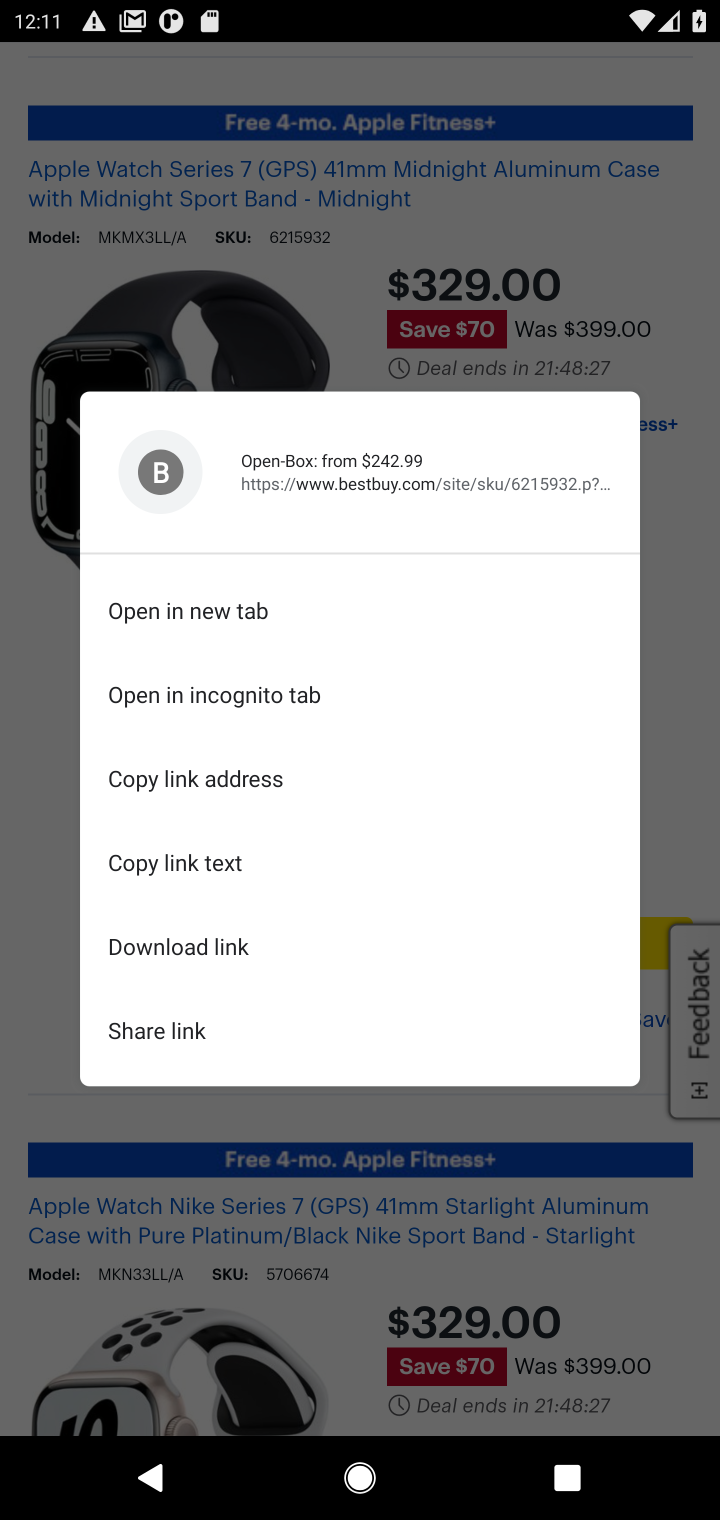
Step 32: click (703, 602)
Your task to perform on an android device: Search for the new Apple Watch on Best Buy Image 33: 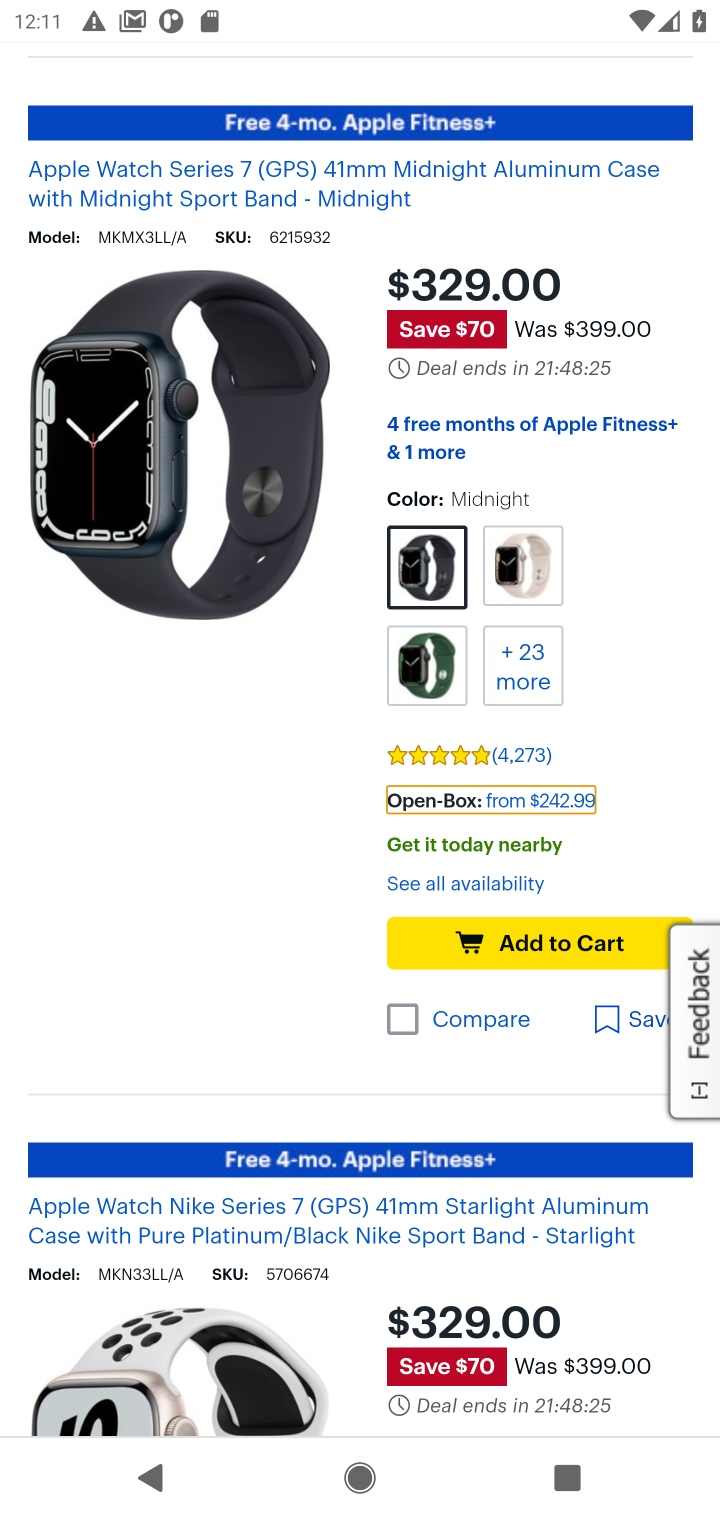
Step 33: drag from (553, 1255) to (591, 440)
Your task to perform on an android device: Search for the new Apple Watch on Best Buy Image 34: 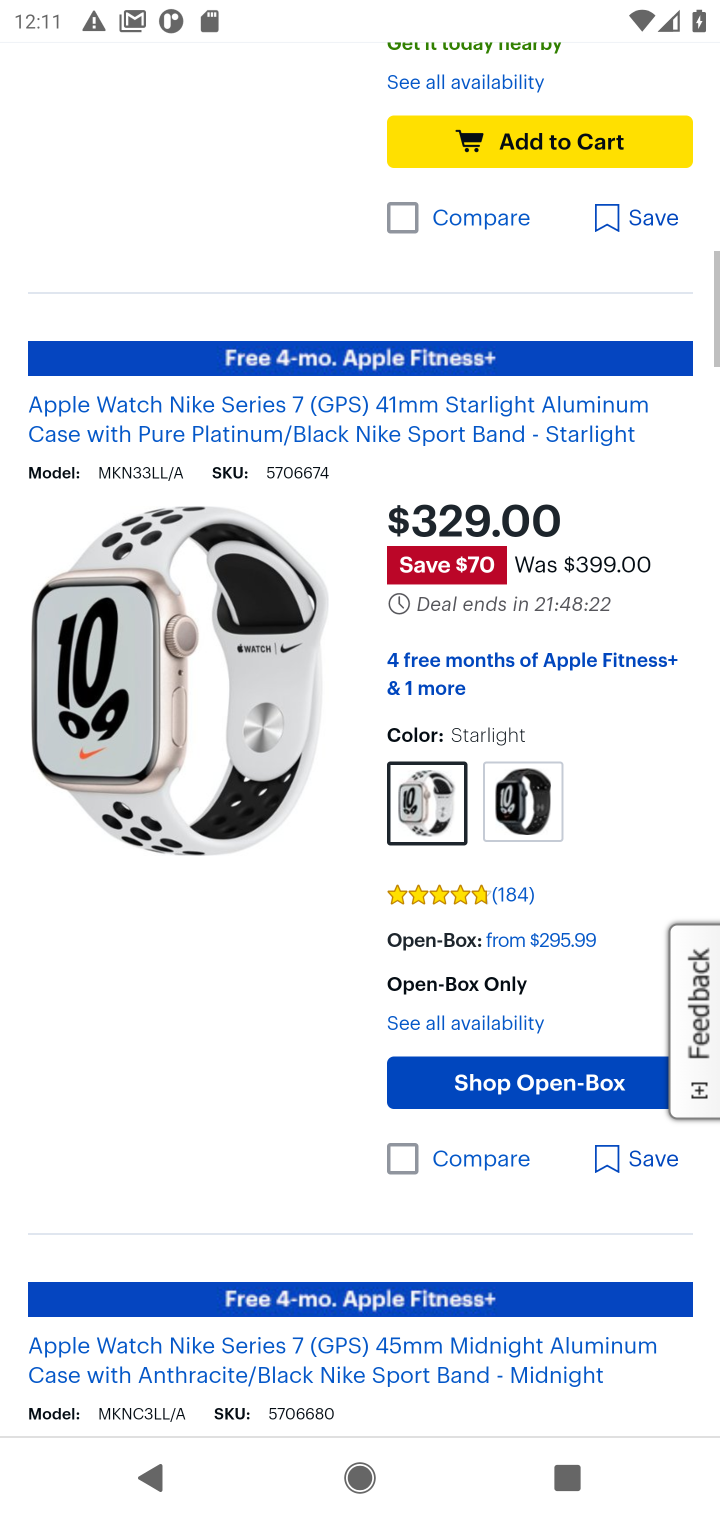
Step 34: drag from (639, 1304) to (671, 581)
Your task to perform on an android device: Search for the new Apple Watch on Best Buy Image 35: 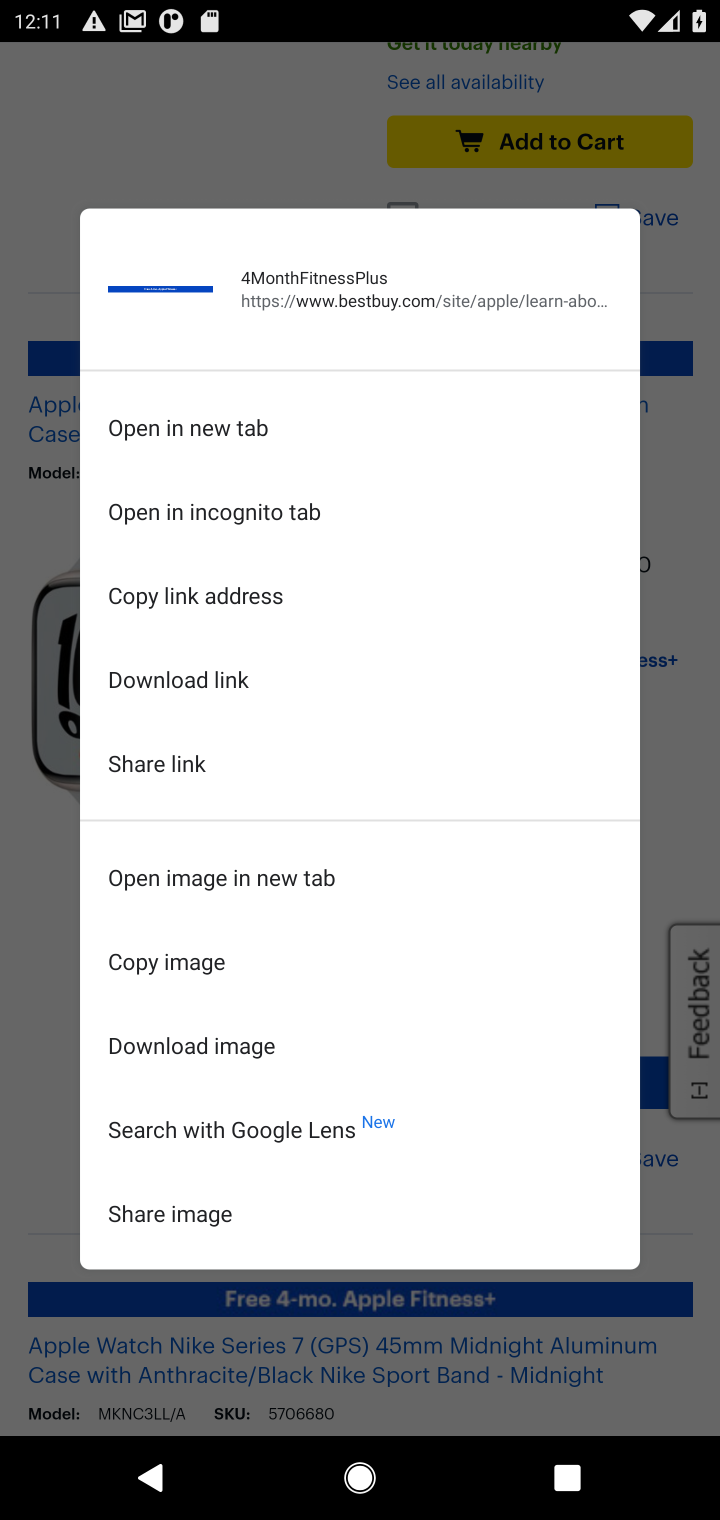
Step 35: click (712, 774)
Your task to perform on an android device: Search for the new Apple Watch on Best Buy Image 36: 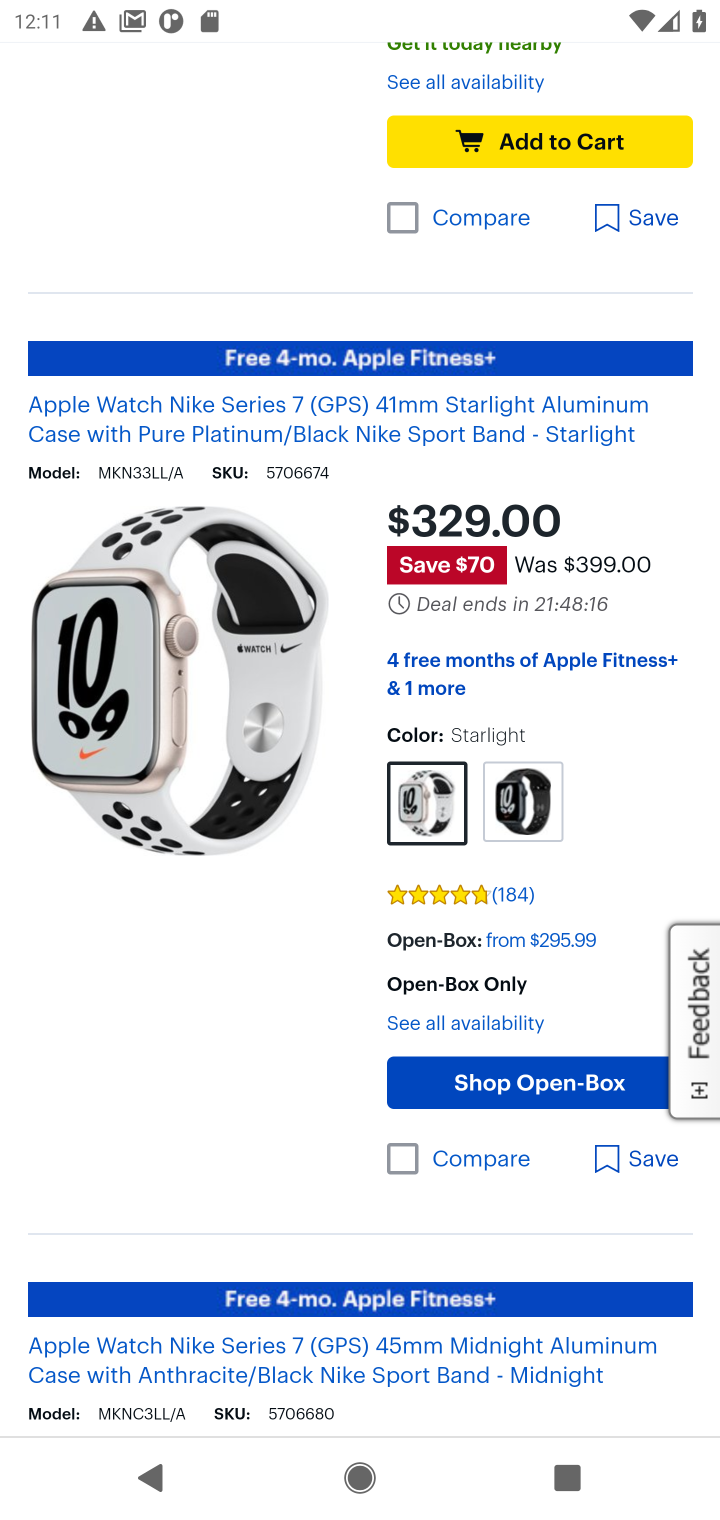
Step 36: drag from (604, 1192) to (465, 381)
Your task to perform on an android device: Search for the new Apple Watch on Best Buy Image 37: 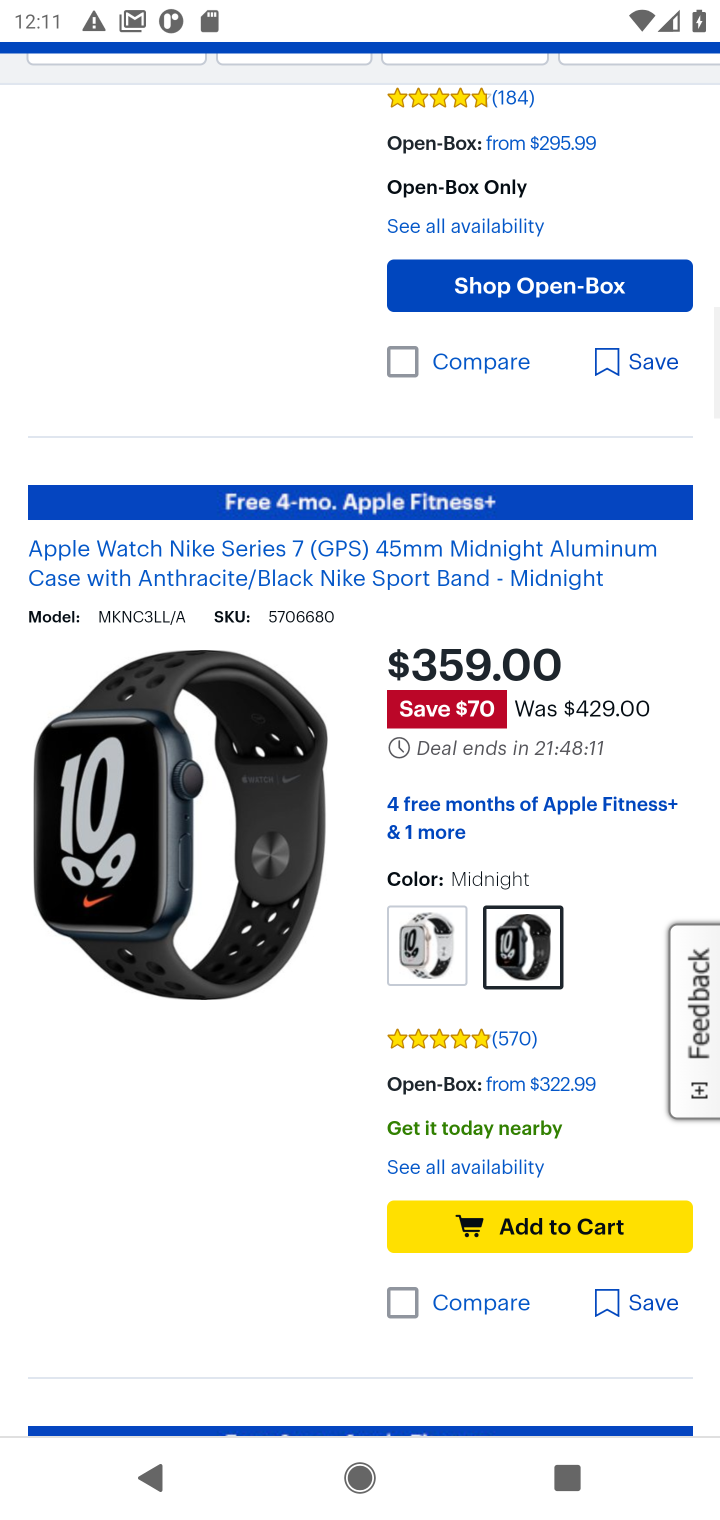
Step 37: drag from (531, 1067) to (629, 403)
Your task to perform on an android device: Search for the new Apple Watch on Best Buy Image 38: 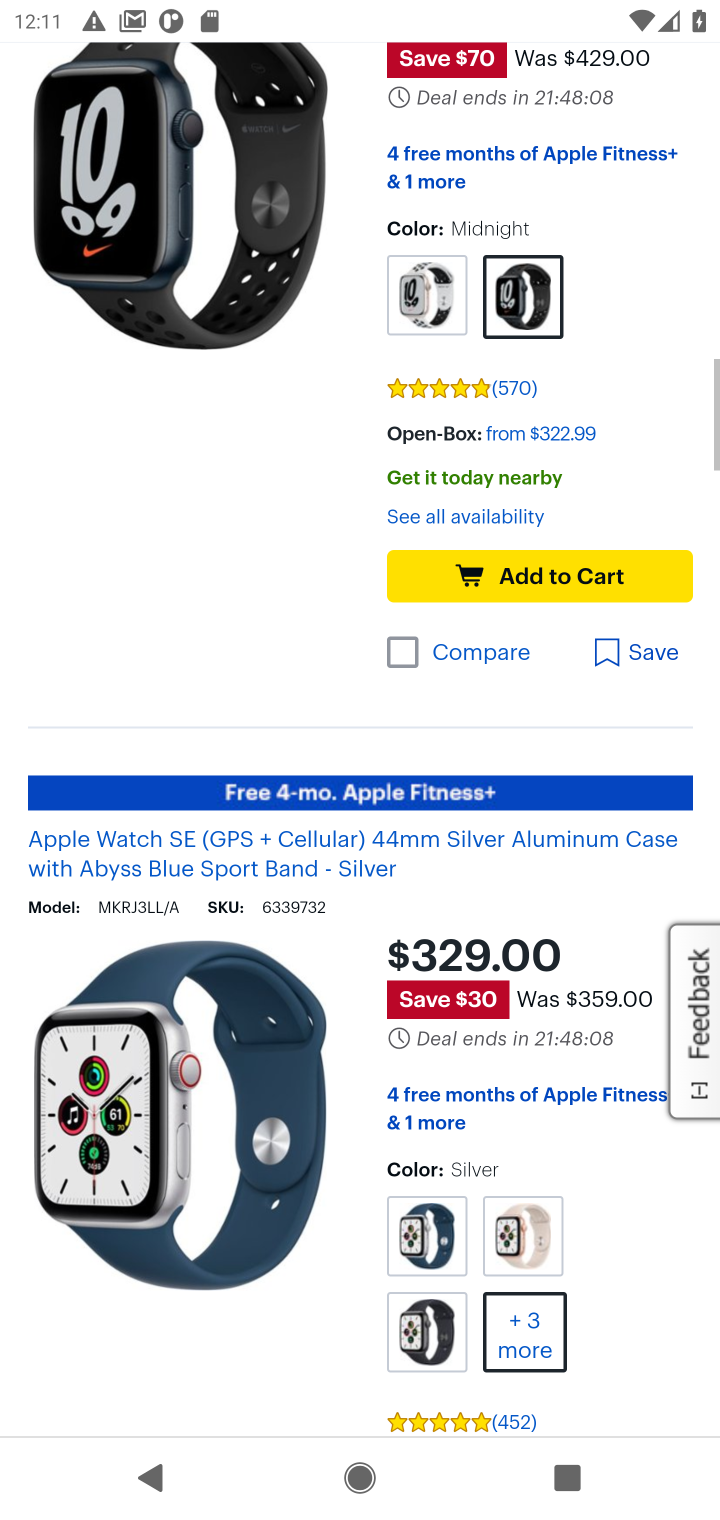
Step 38: click (705, 710)
Your task to perform on an android device: Search for the new Apple Watch on Best Buy Image 39: 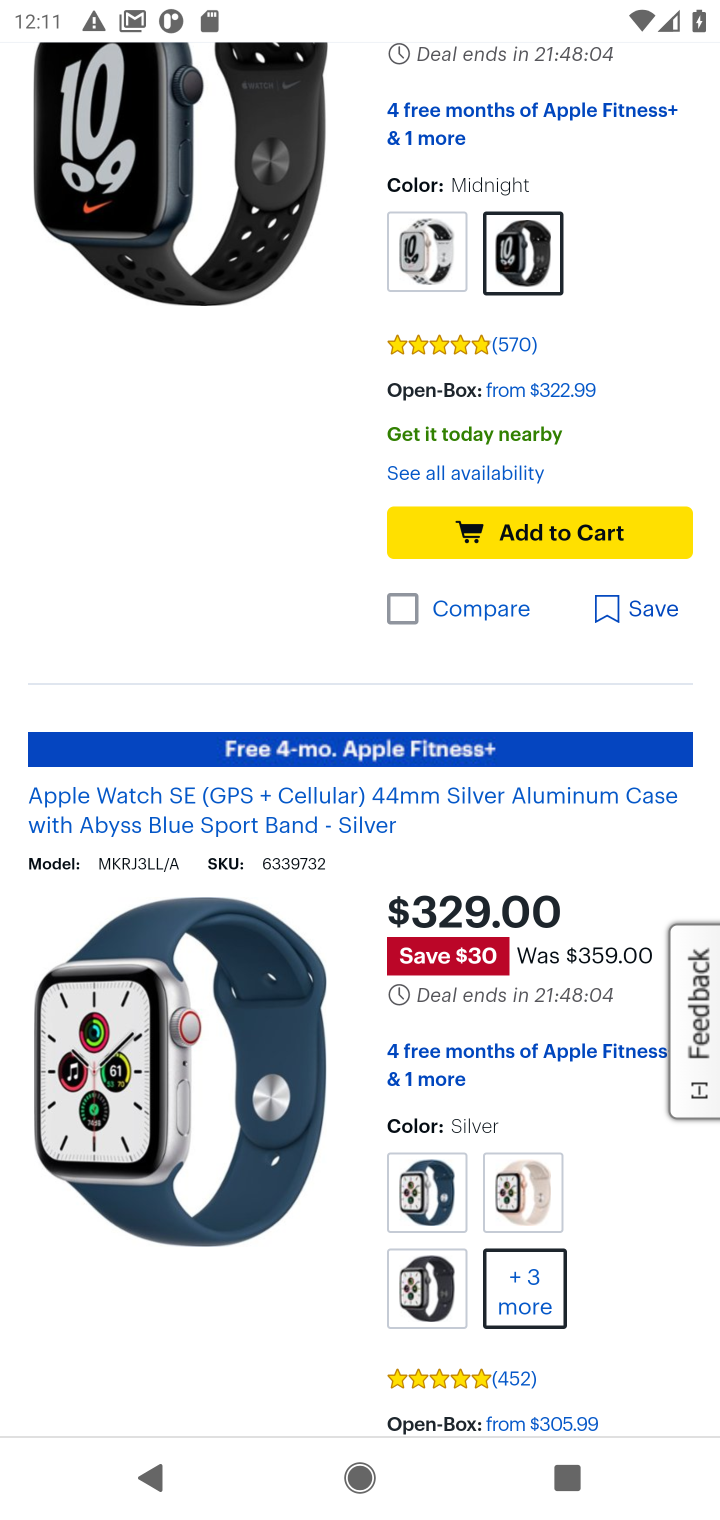
Step 39: drag from (685, 1170) to (609, 548)
Your task to perform on an android device: Search for the new Apple Watch on Best Buy Image 40: 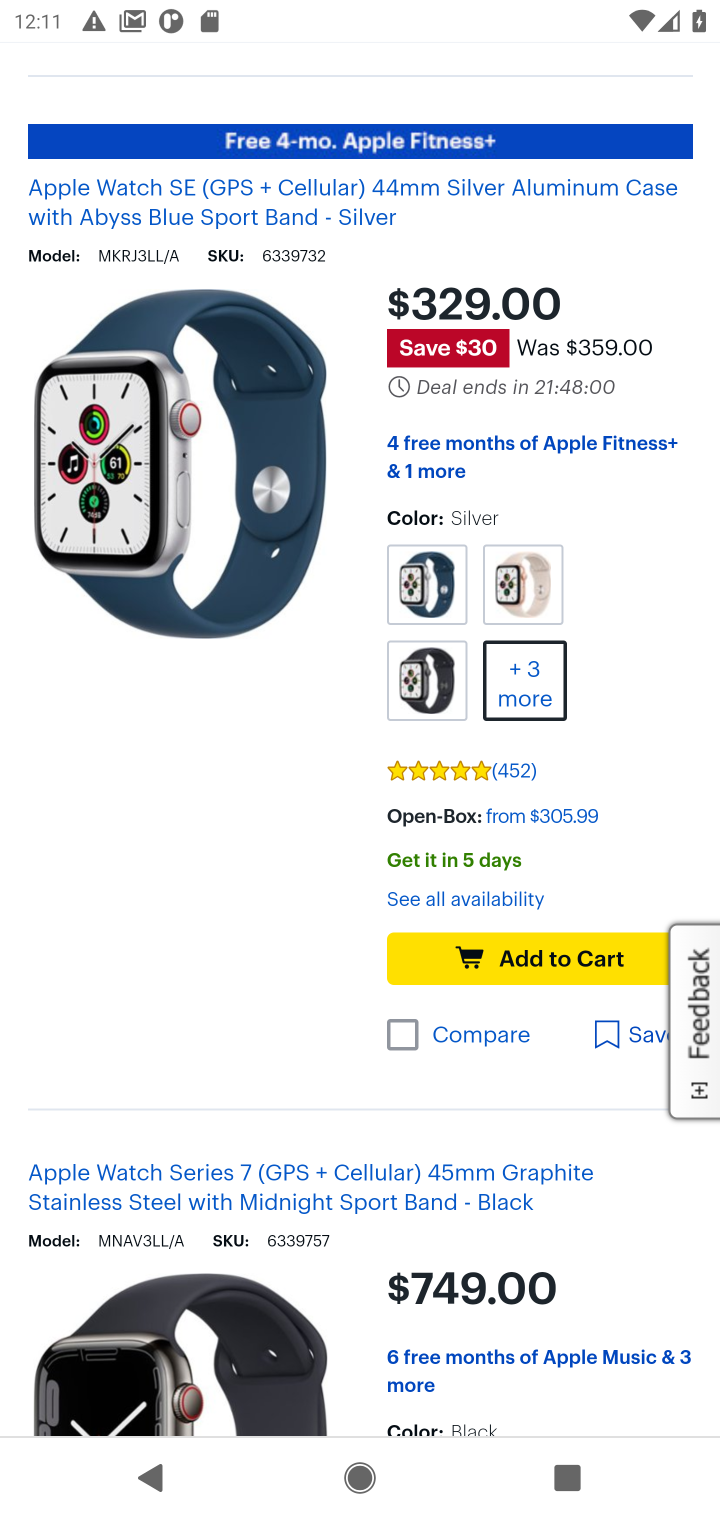
Step 40: click (435, 579)
Your task to perform on an android device: Search for the new Apple Watch on Best Buy Image 41: 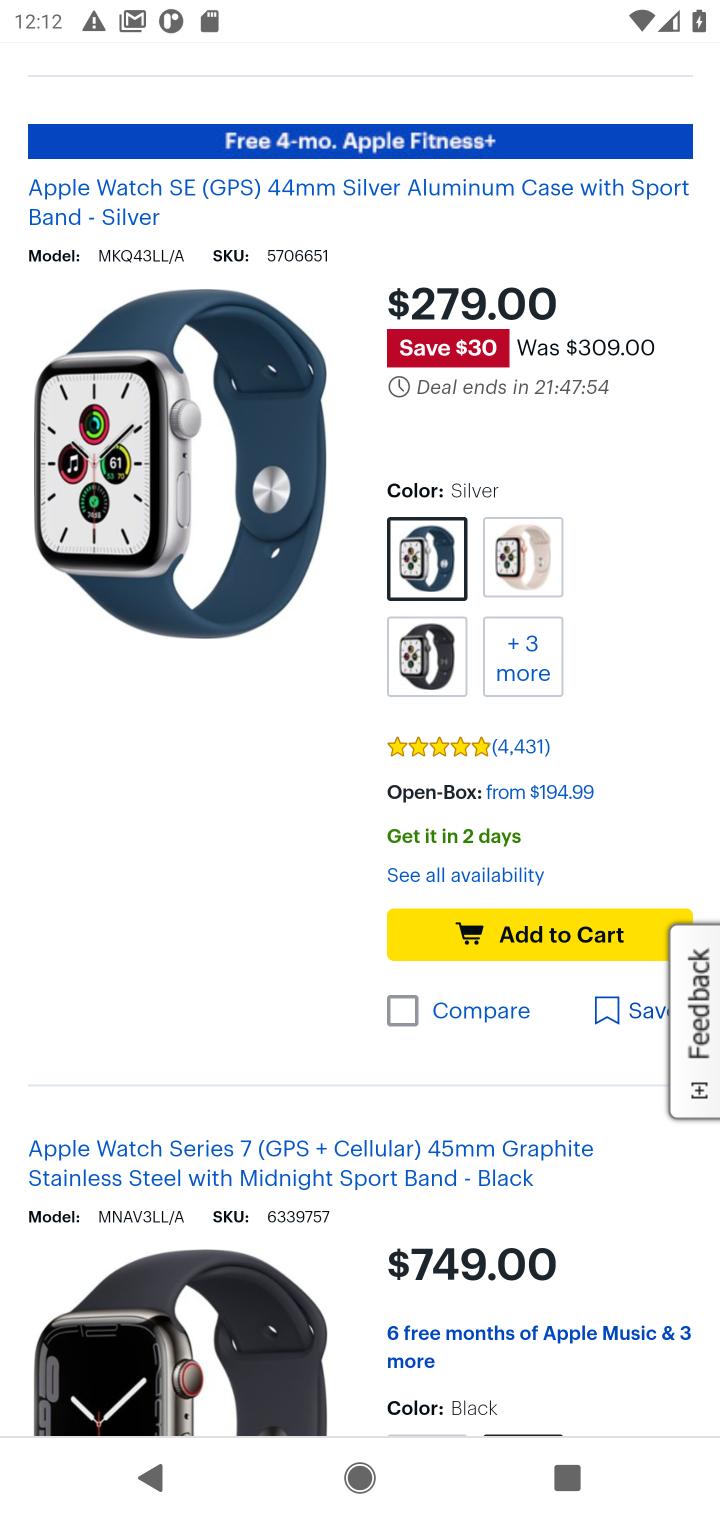
Step 41: task complete